Your task to perform on an android device: turn off picture-in-picture Image 0: 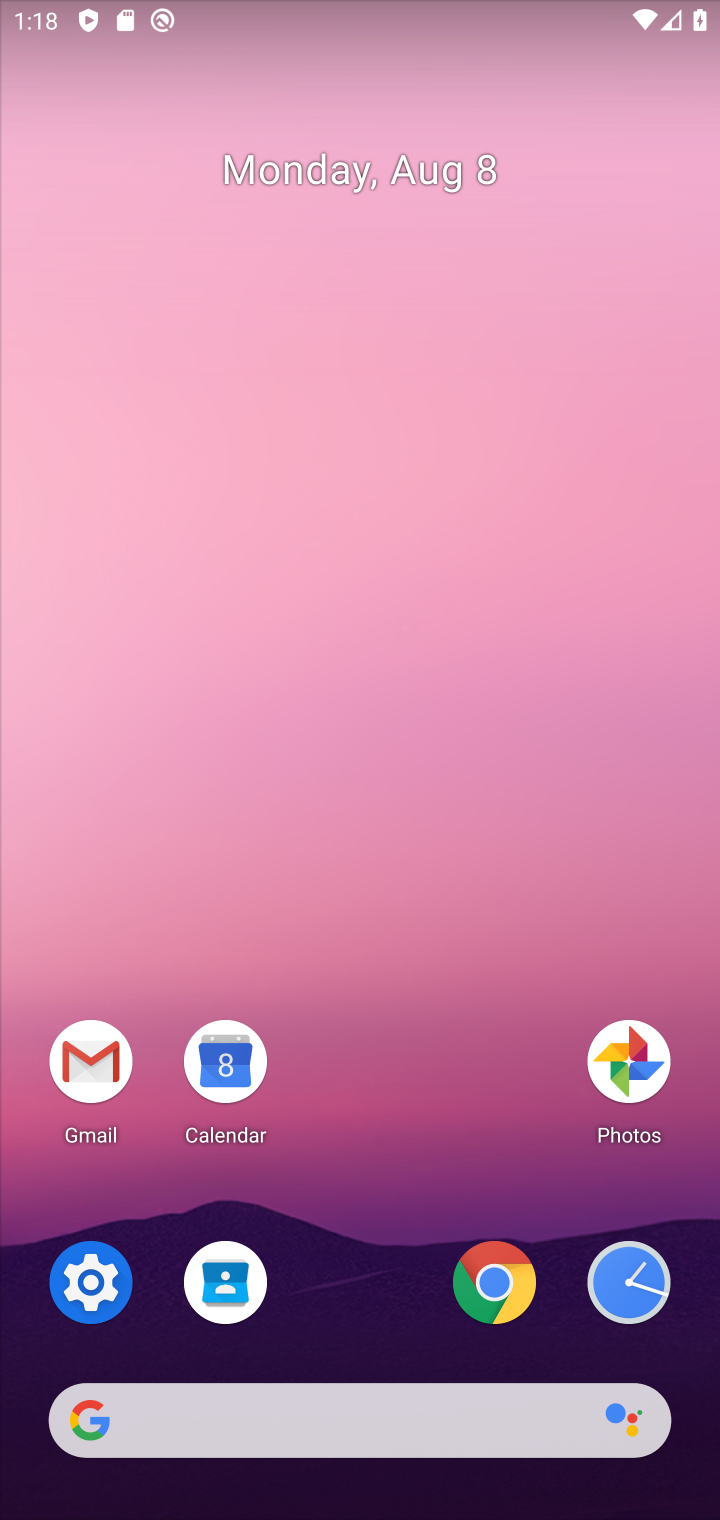
Step 0: click (88, 1298)
Your task to perform on an android device: turn off picture-in-picture Image 1: 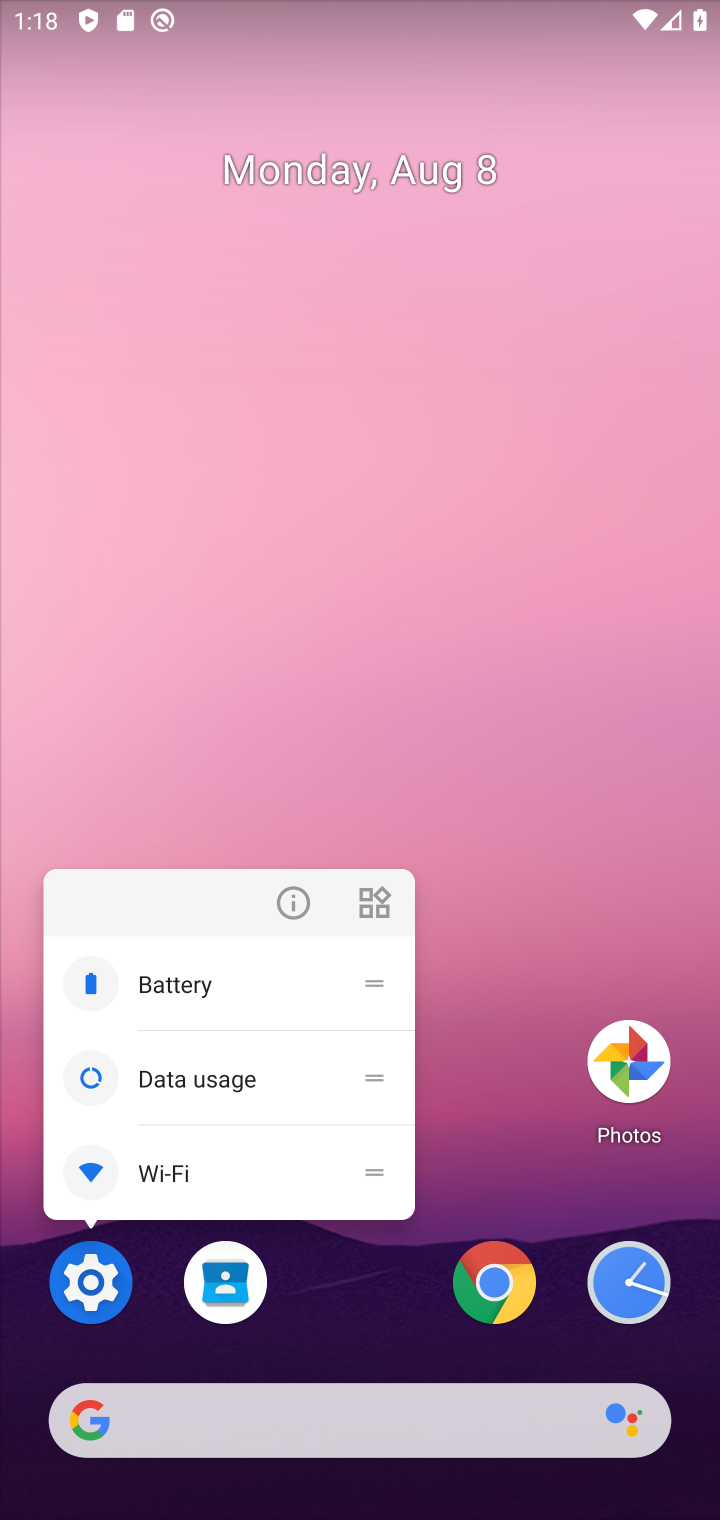
Step 1: click (106, 1279)
Your task to perform on an android device: turn off picture-in-picture Image 2: 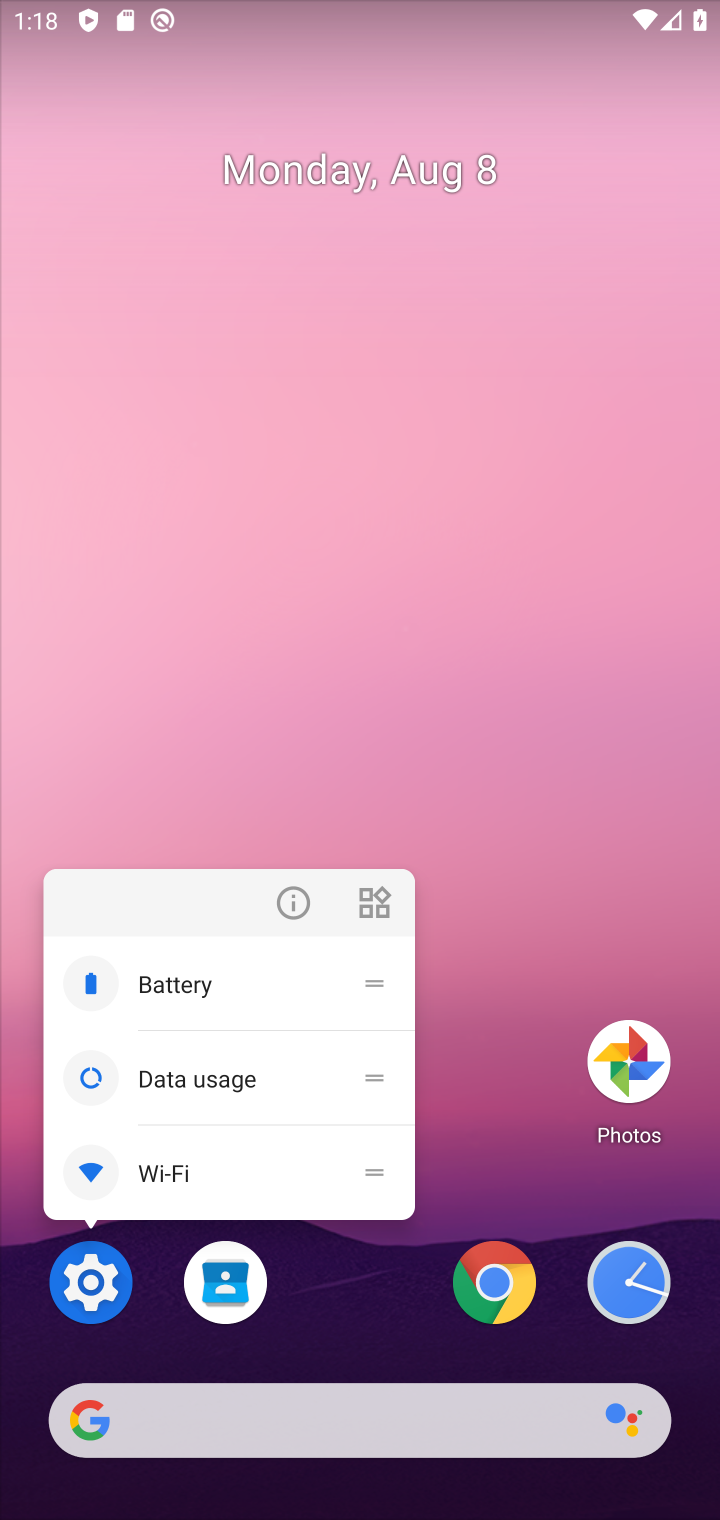
Step 2: click (84, 1294)
Your task to perform on an android device: turn off picture-in-picture Image 3: 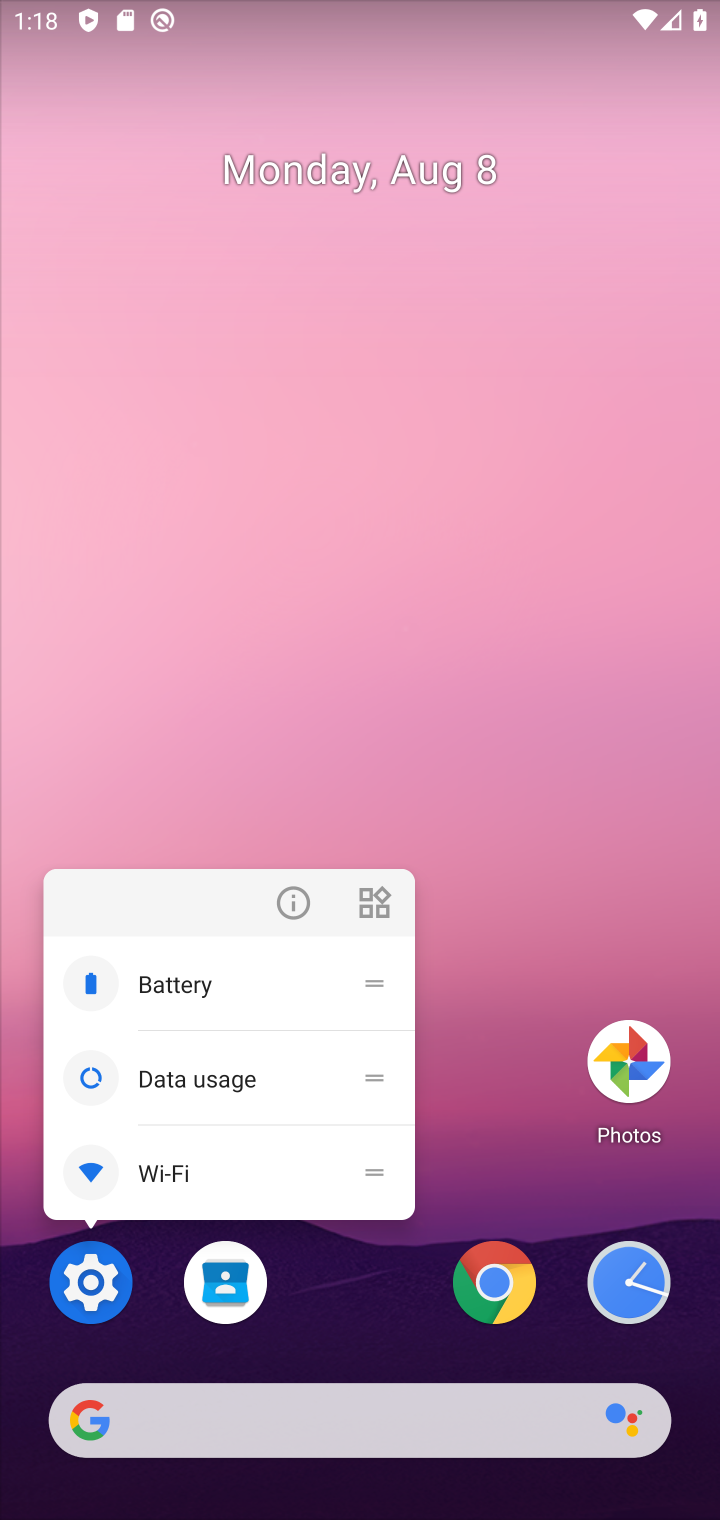
Step 3: click (481, 726)
Your task to perform on an android device: turn off picture-in-picture Image 4: 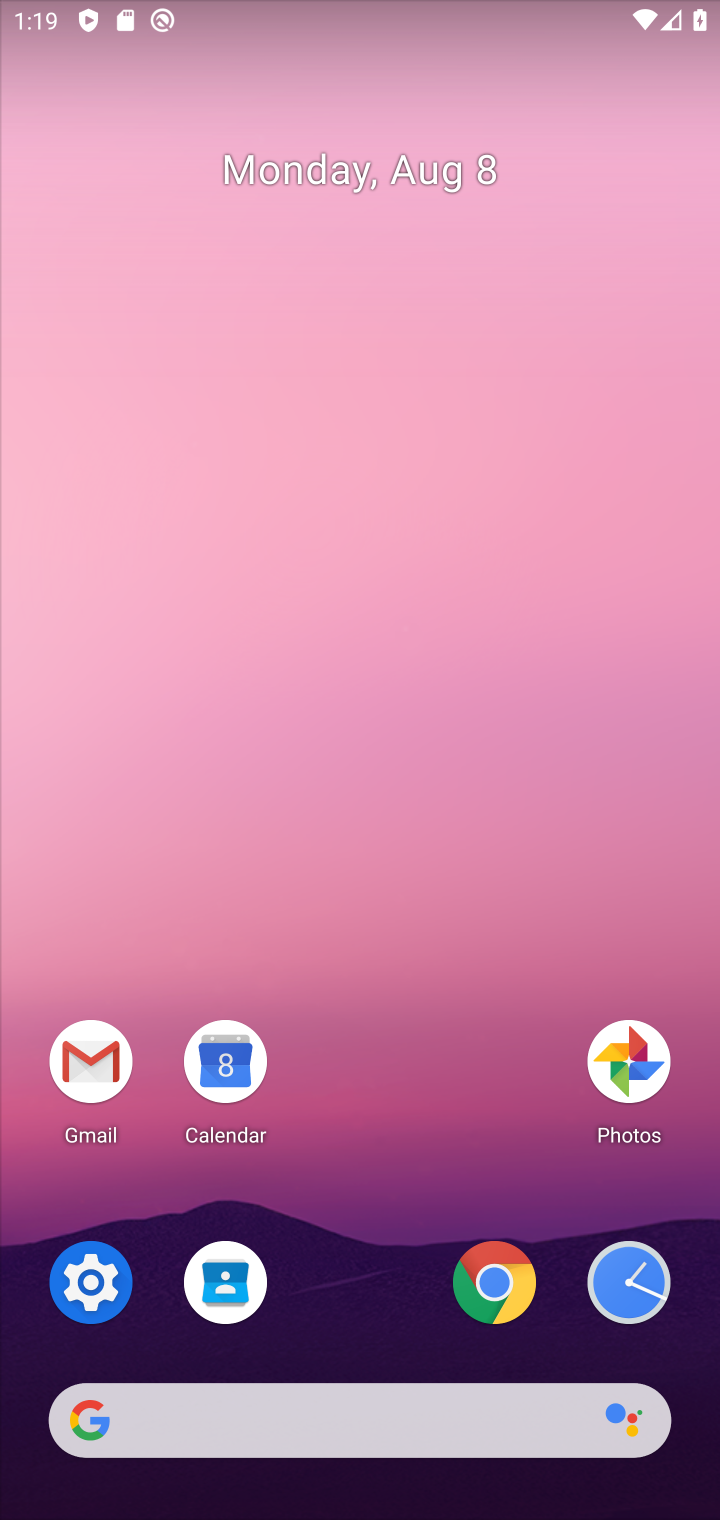
Step 4: click (90, 1283)
Your task to perform on an android device: turn off picture-in-picture Image 5: 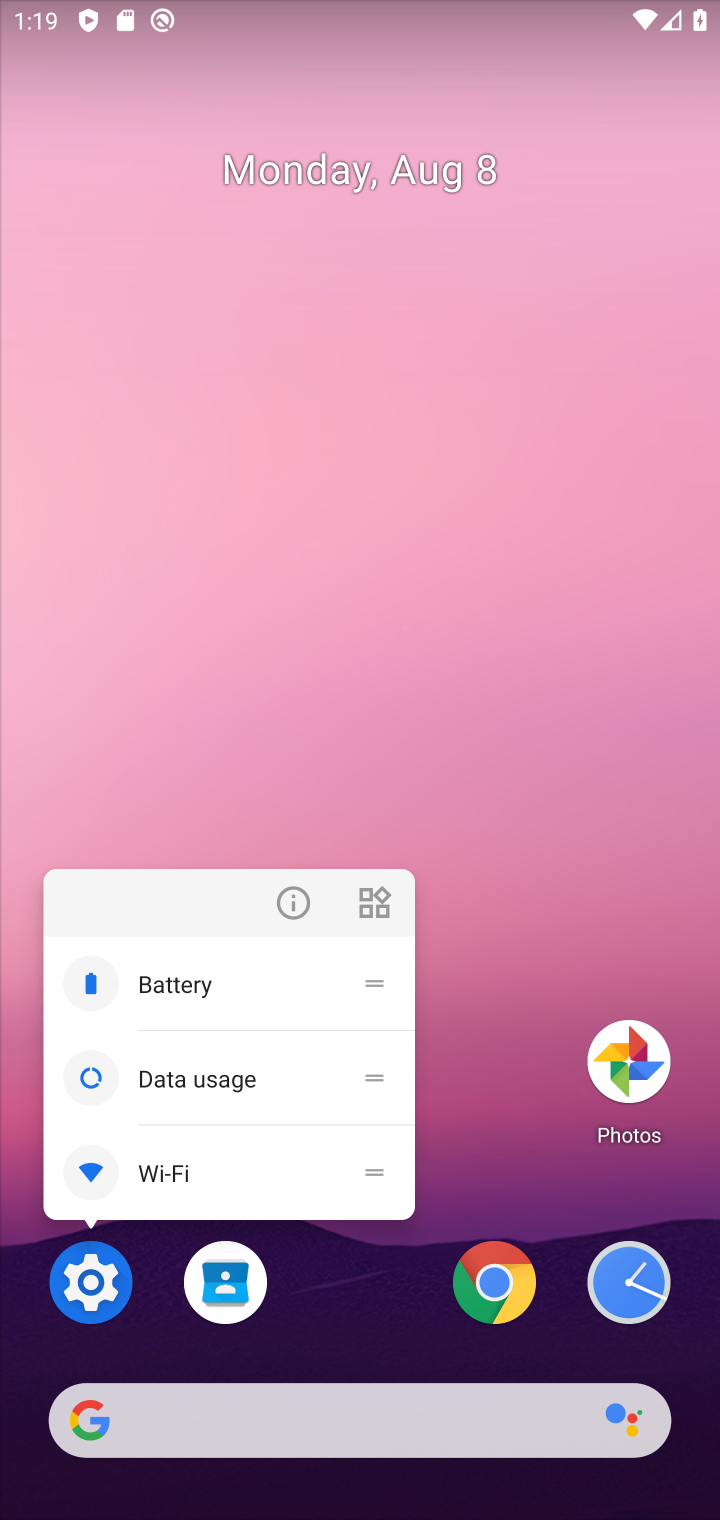
Step 5: click (89, 1320)
Your task to perform on an android device: turn off picture-in-picture Image 6: 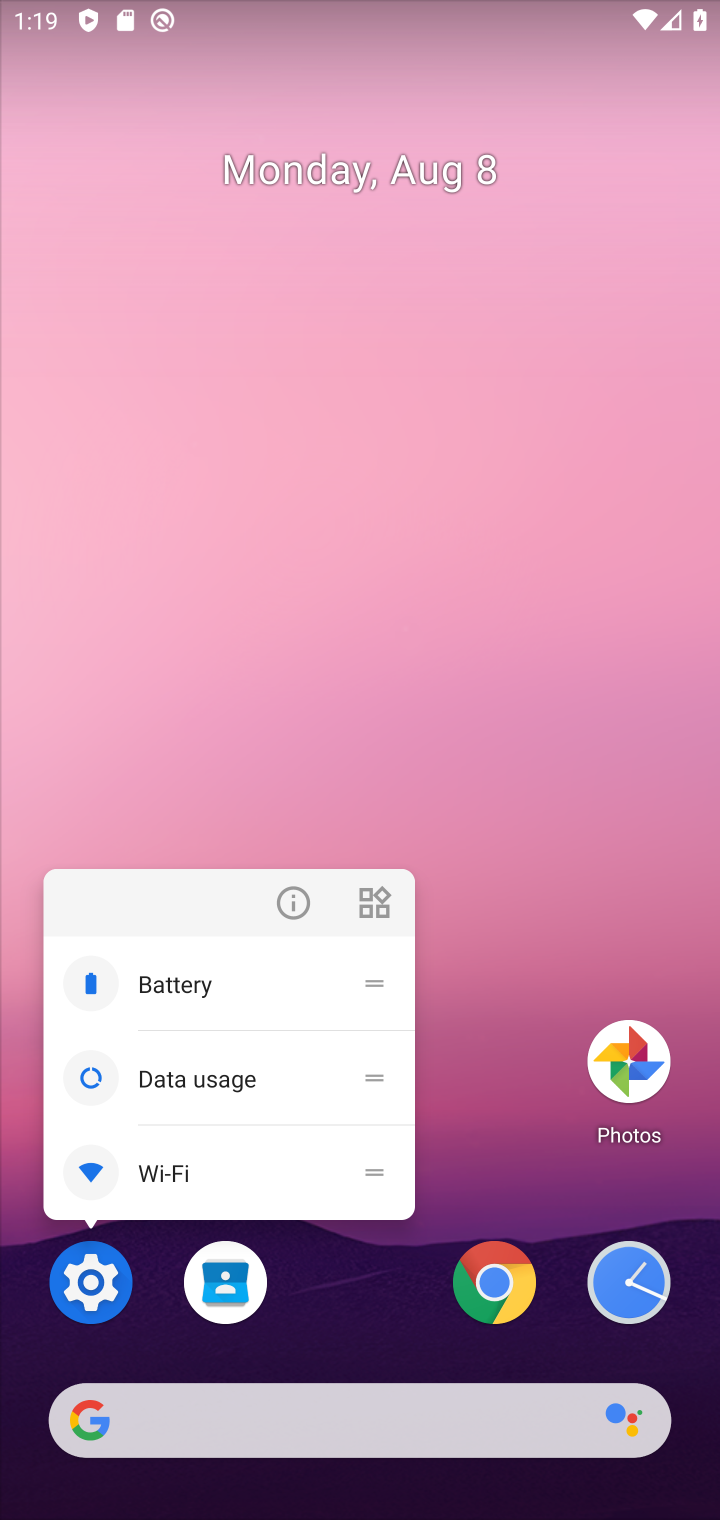
Step 6: click (379, 504)
Your task to perform on an android device: turn off picture-in-picture Image 7: 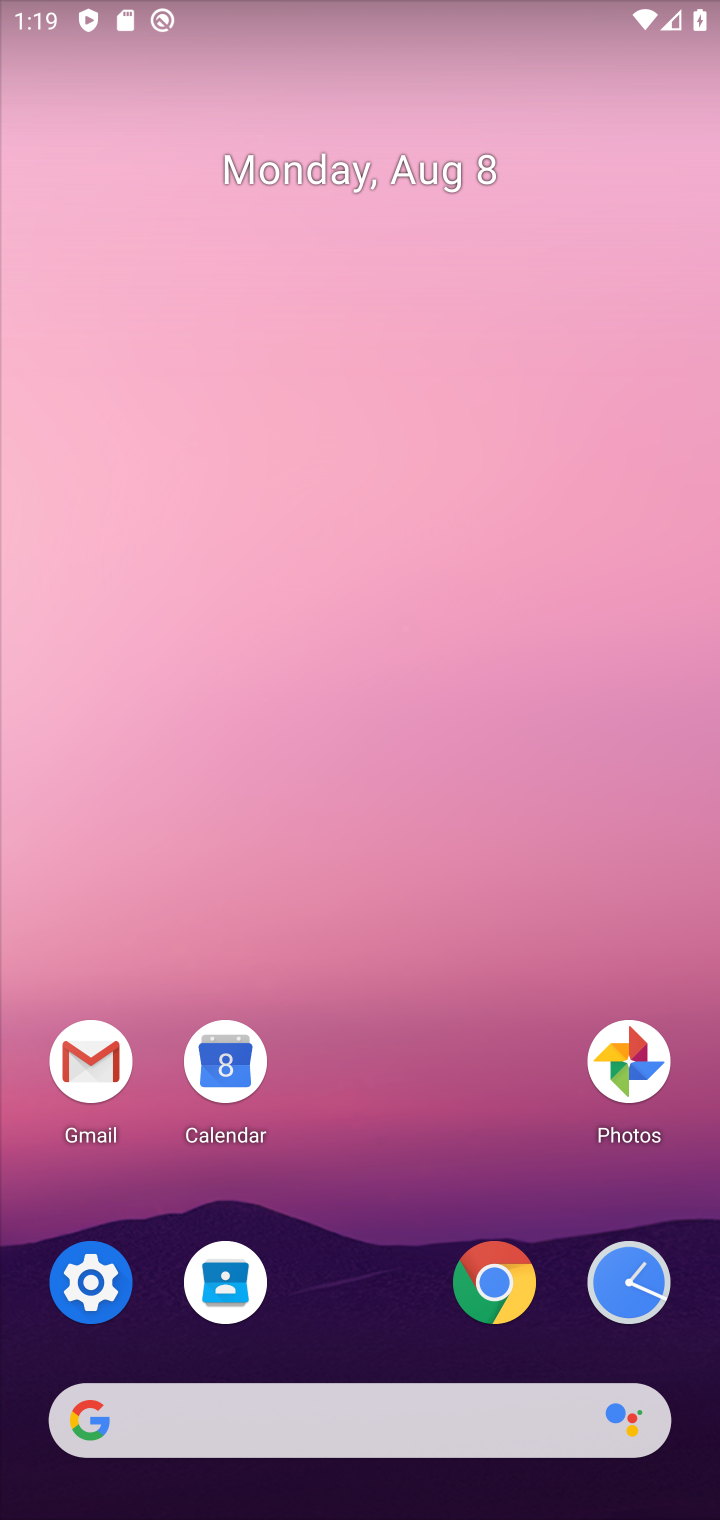
Step 7: click (103, 1278)
Your task to perform on an android device: turn off picture-in-picture Image 8: 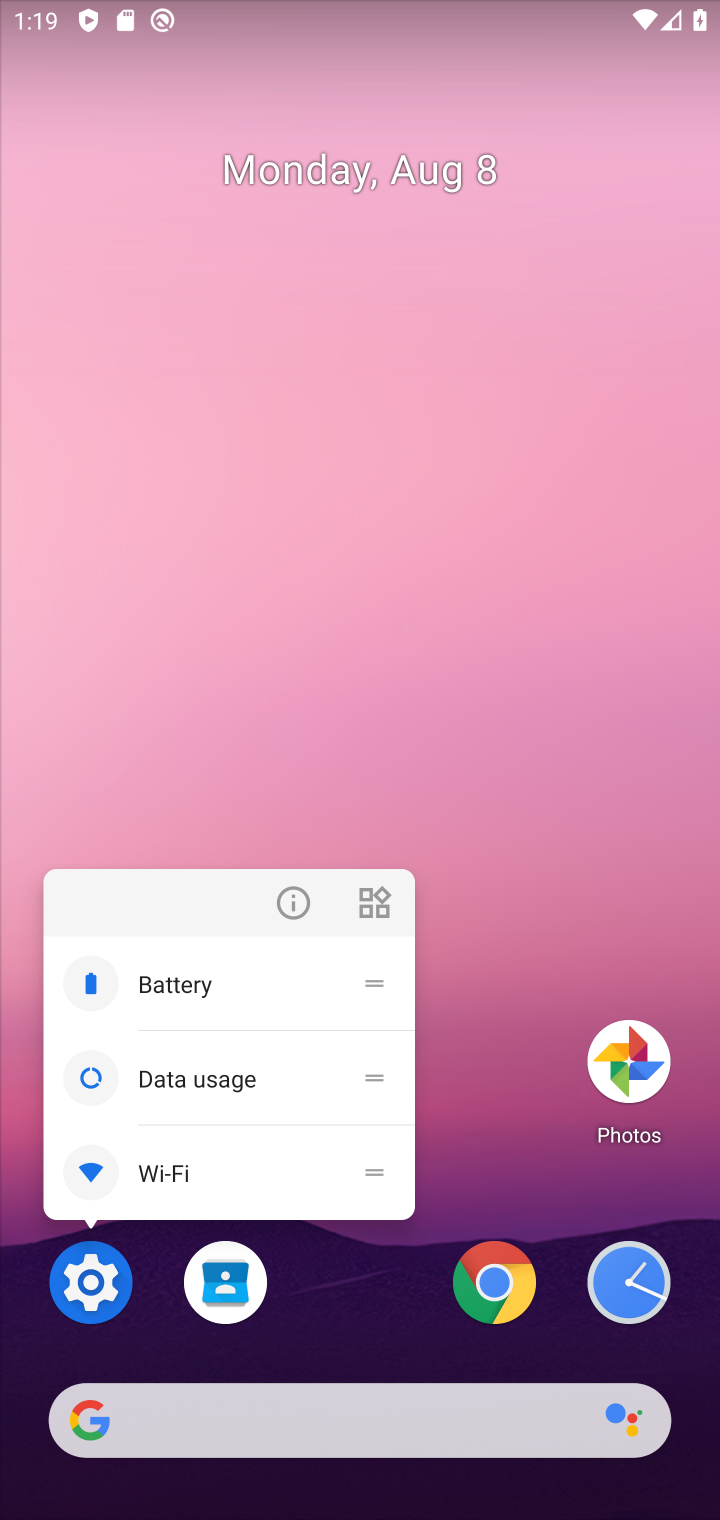
Step 8: click (94, 1276)
Your task to perform on an android device: turn off picture-in-picture Image 9: 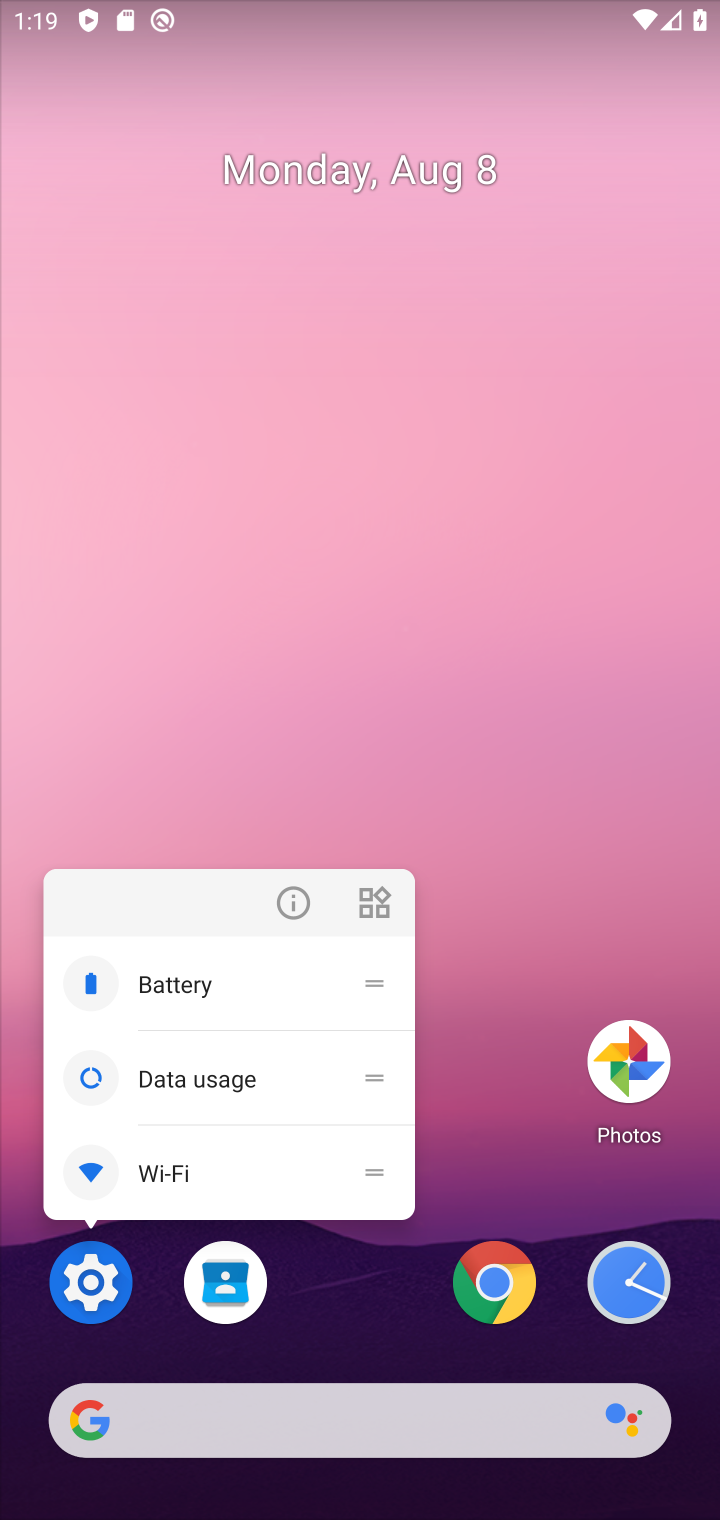
Step 9: click (94, 1276)
Your task to perform on an android device: turn off picture-in-picture Image 10: 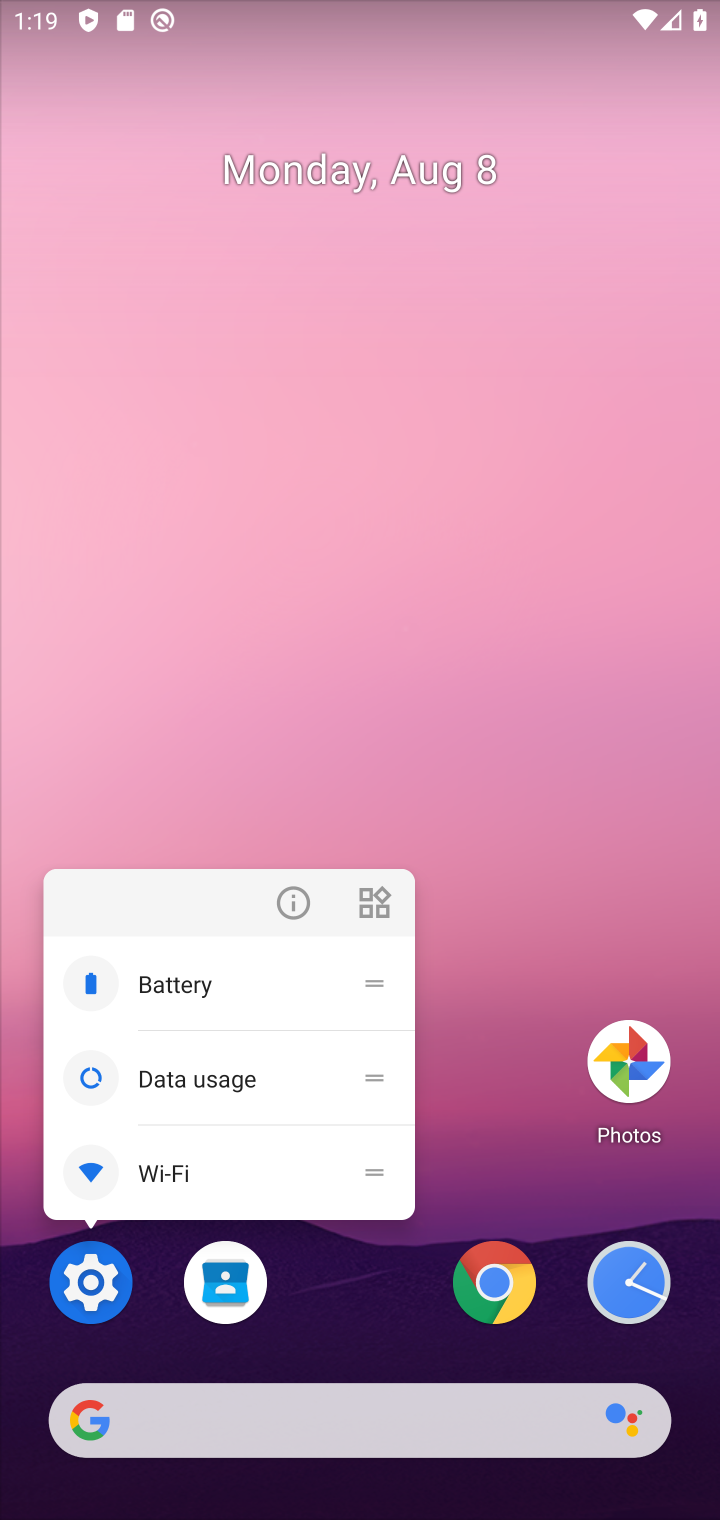
Step 10: click (63, 1276)
Your task to perform on an android device: turn off picture-in-picture Image 11: 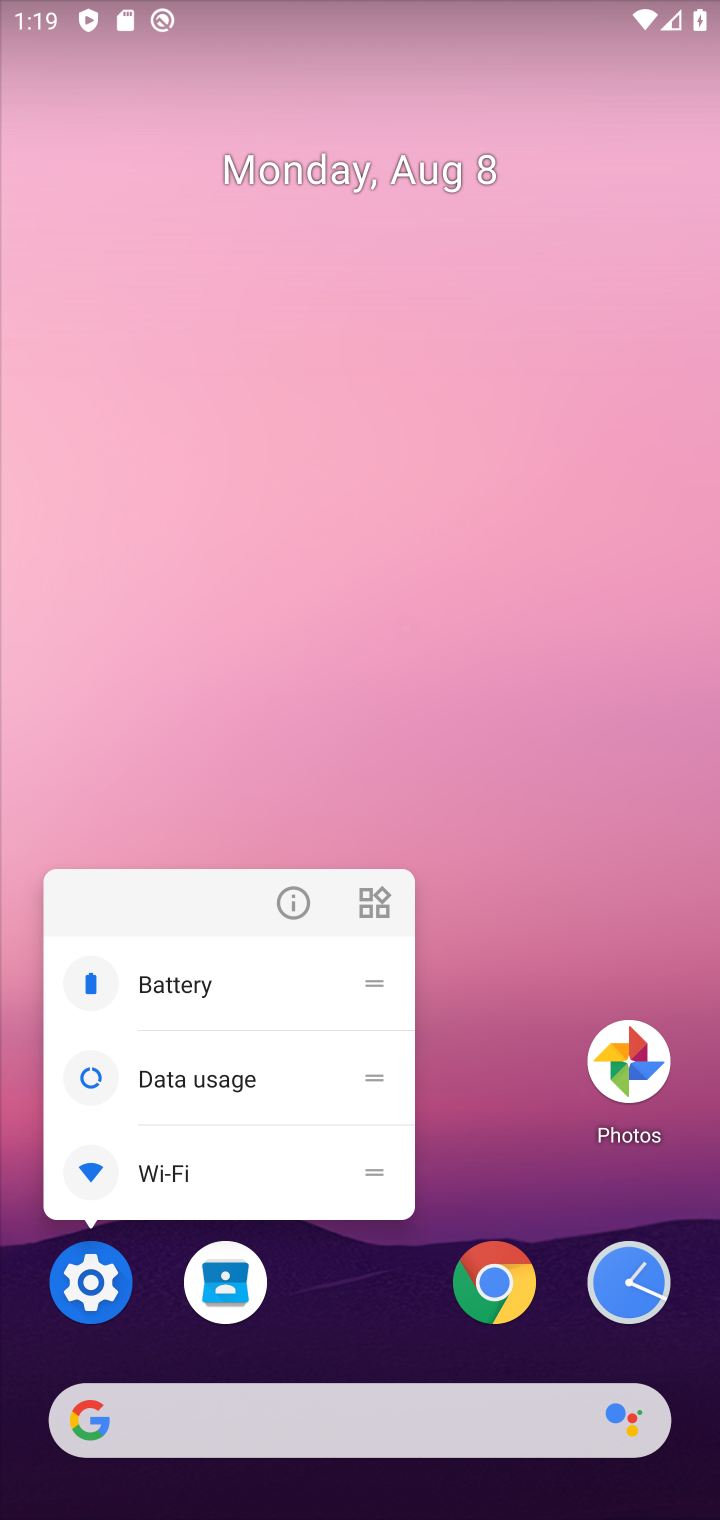
Step 11: click (99, 1270)
Your task to perform on an android device: turn off picture-in-picture Image 12: 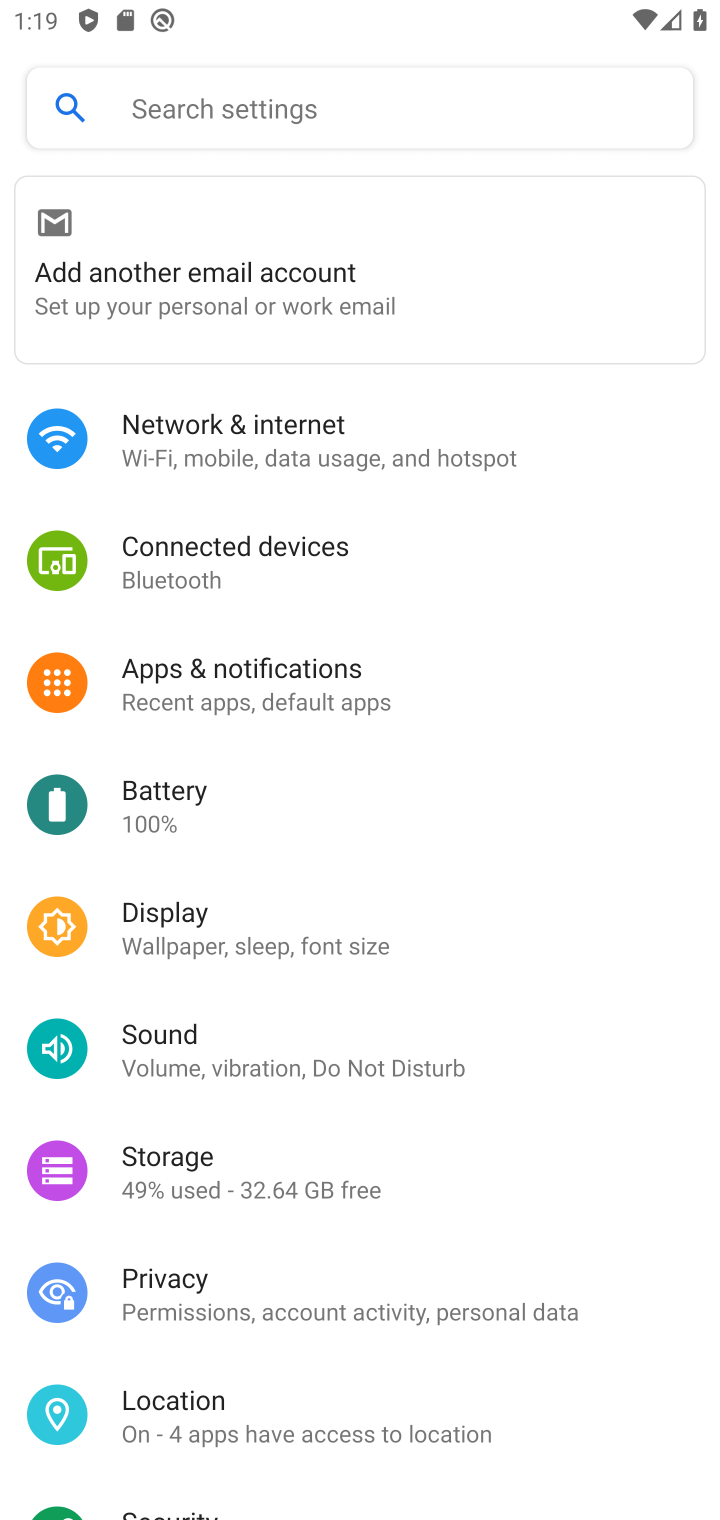
Step 12: click (251, 661)
Your task to perform on an android device: turn off picture-in-picture Image 13: 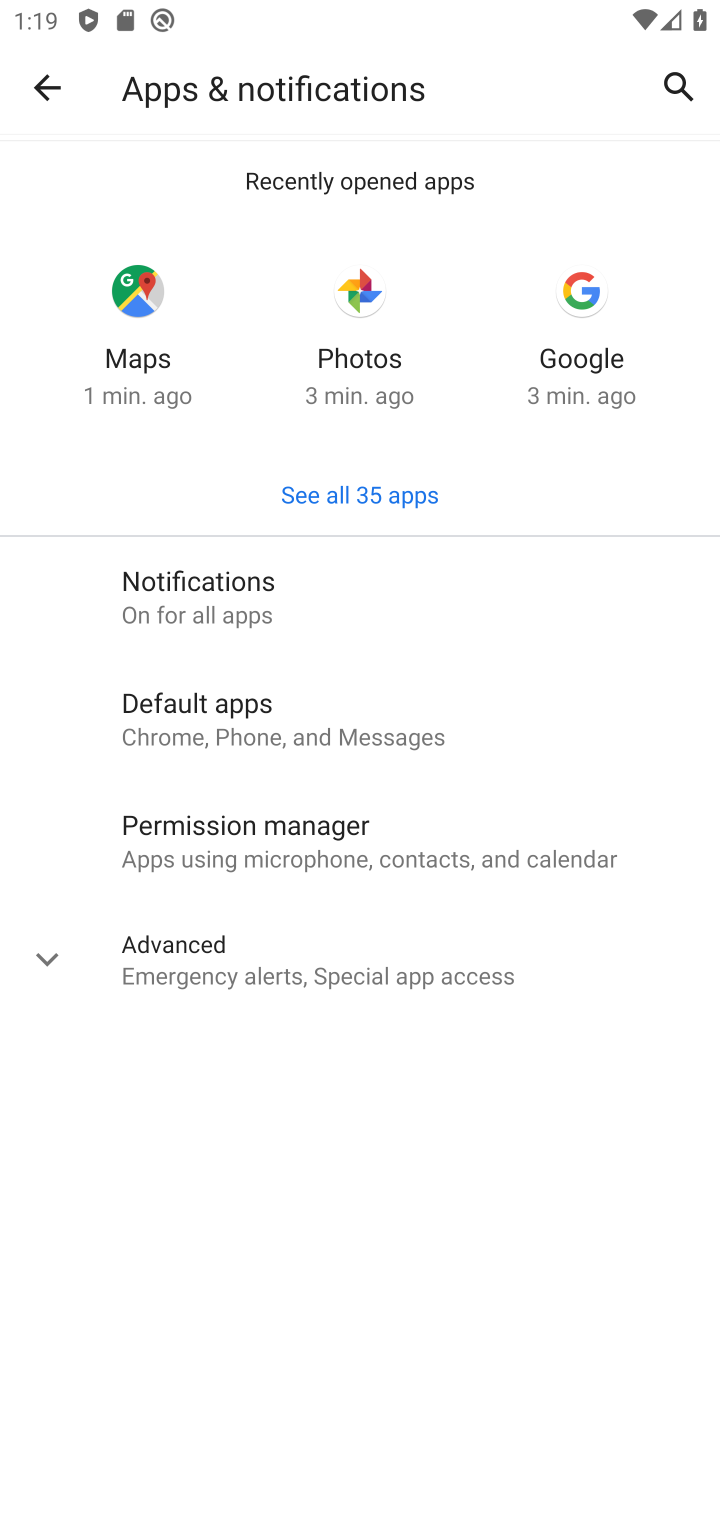
Step 13: click (48, 958)
Your task to perform on an android device: turn off picture-in-picture Image 14: 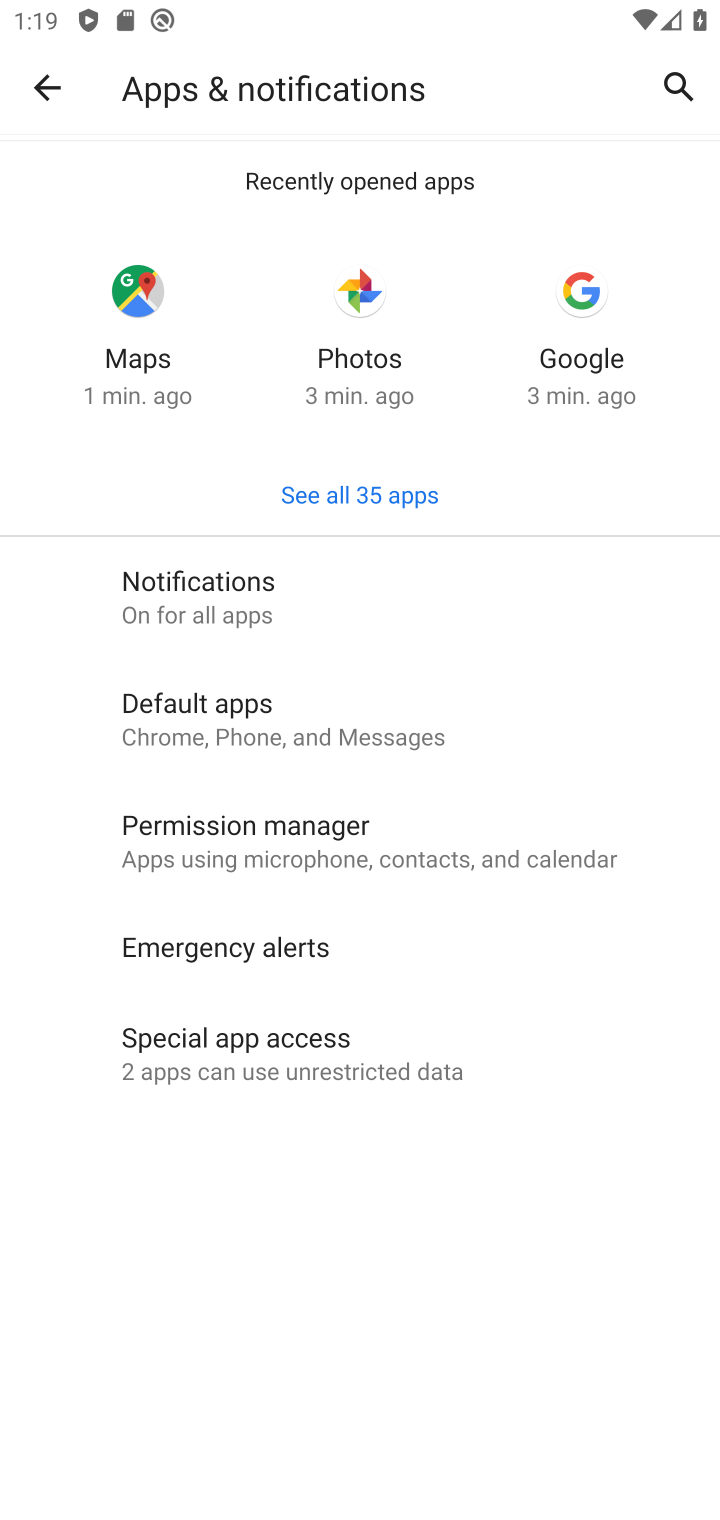
Step 14: click (242, 1036)
Your task to perform on an android device: turn off picture-in-picture Image 15: 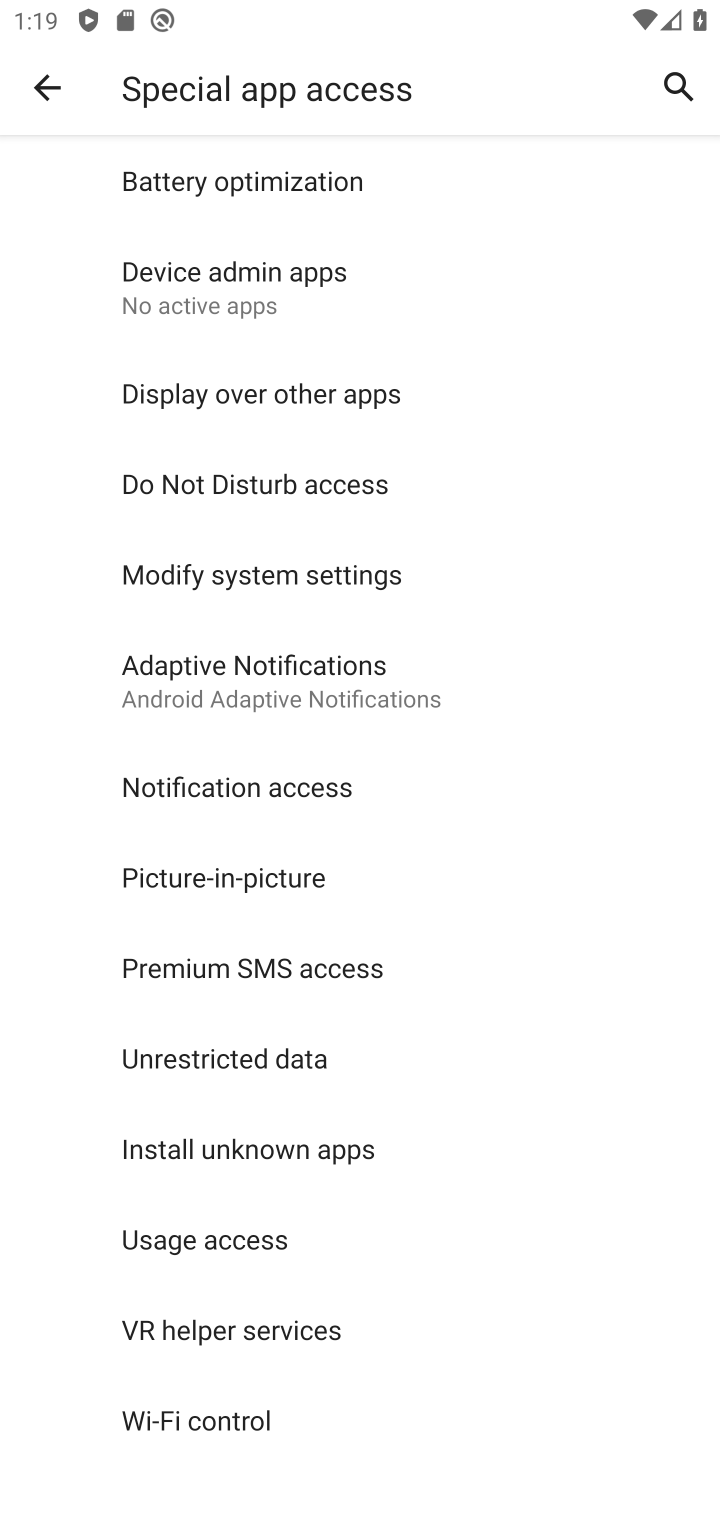
Step 15: click (227, 880)
Your task to perform on an android device: turn off picture-in-picture Image 16: 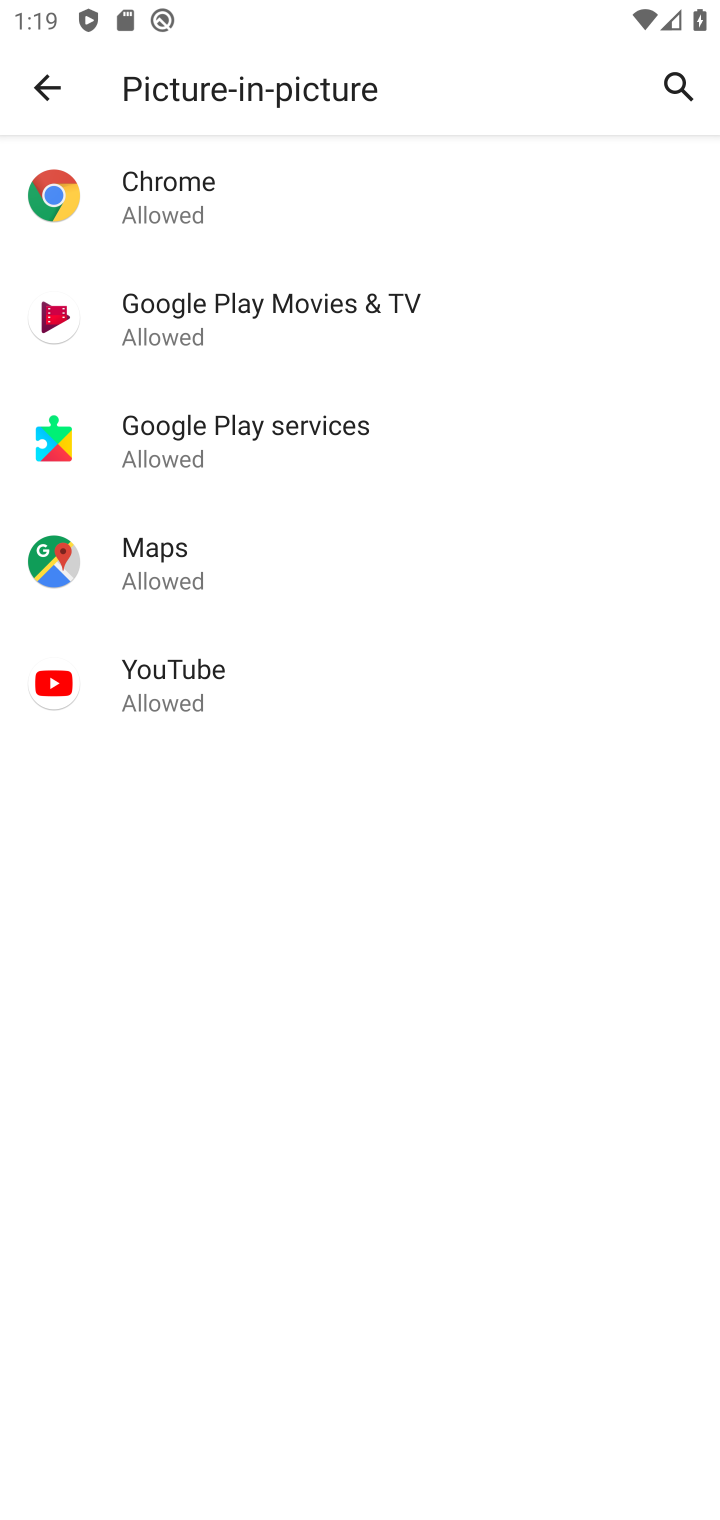
Step 16: click (163, 192)
Your task to perform on an android device: turn off picture-in-picture Image 17: 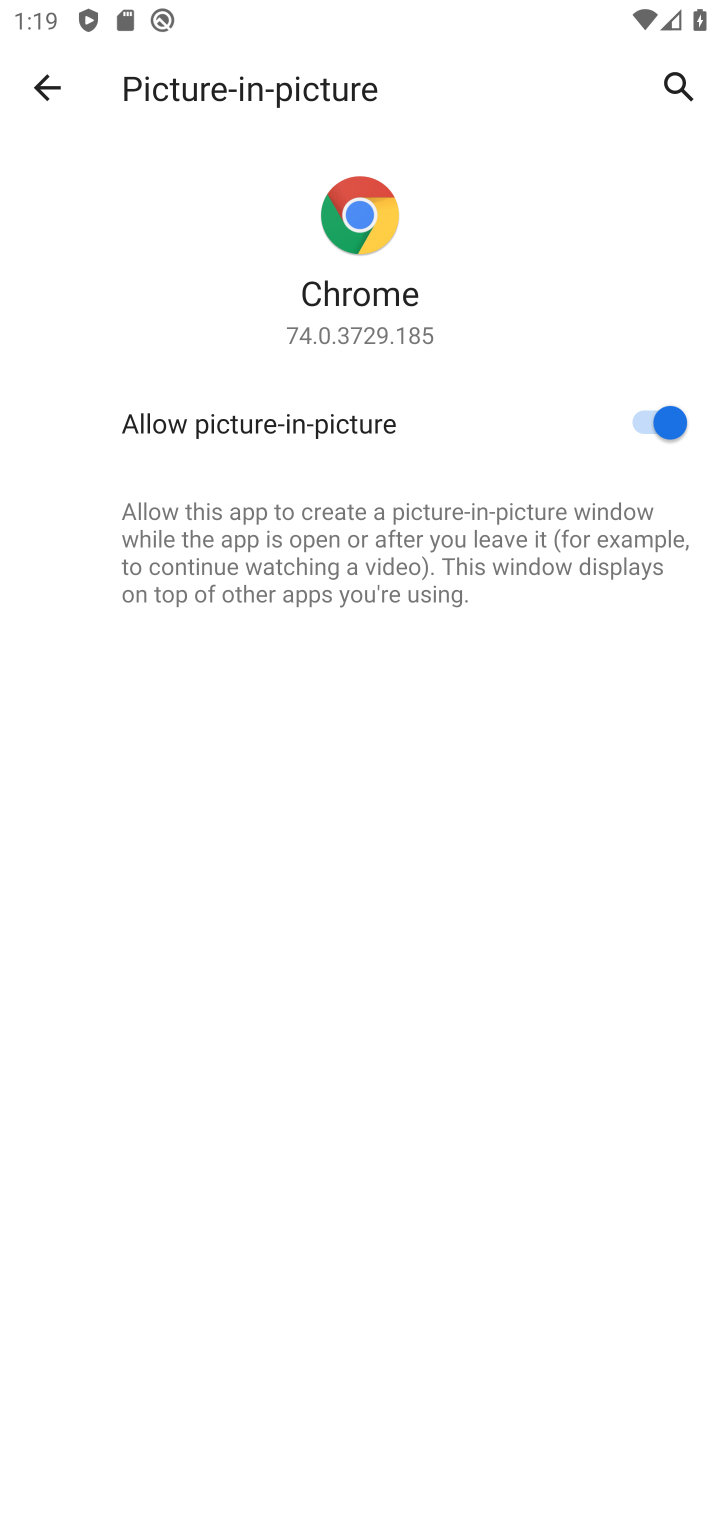
Step 17: click (657, 401)
Your task to perform on an android device: turn off picture-in-picture Image 18: 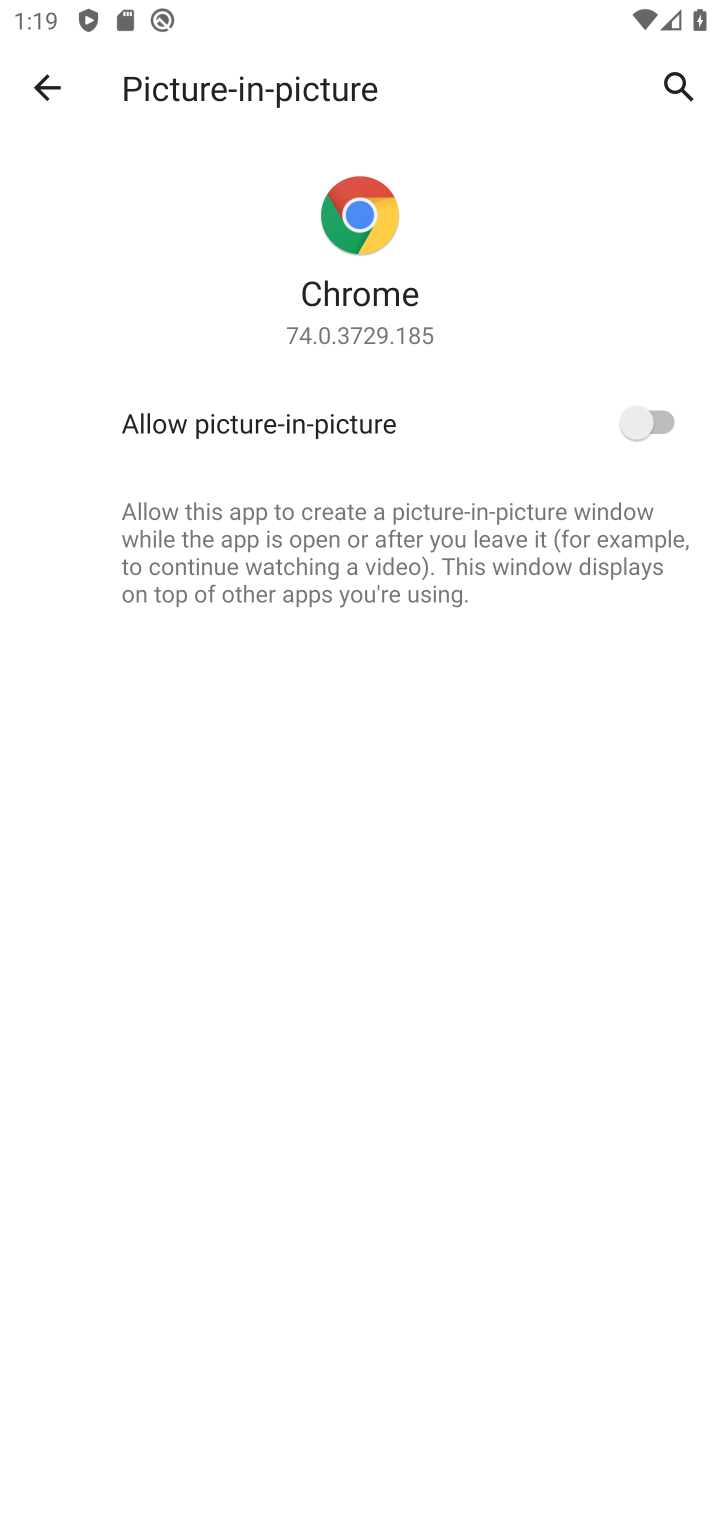
Step 18: click (42, 91)
Your task to perform on an android device: turn off picture-in-picture Image 19: 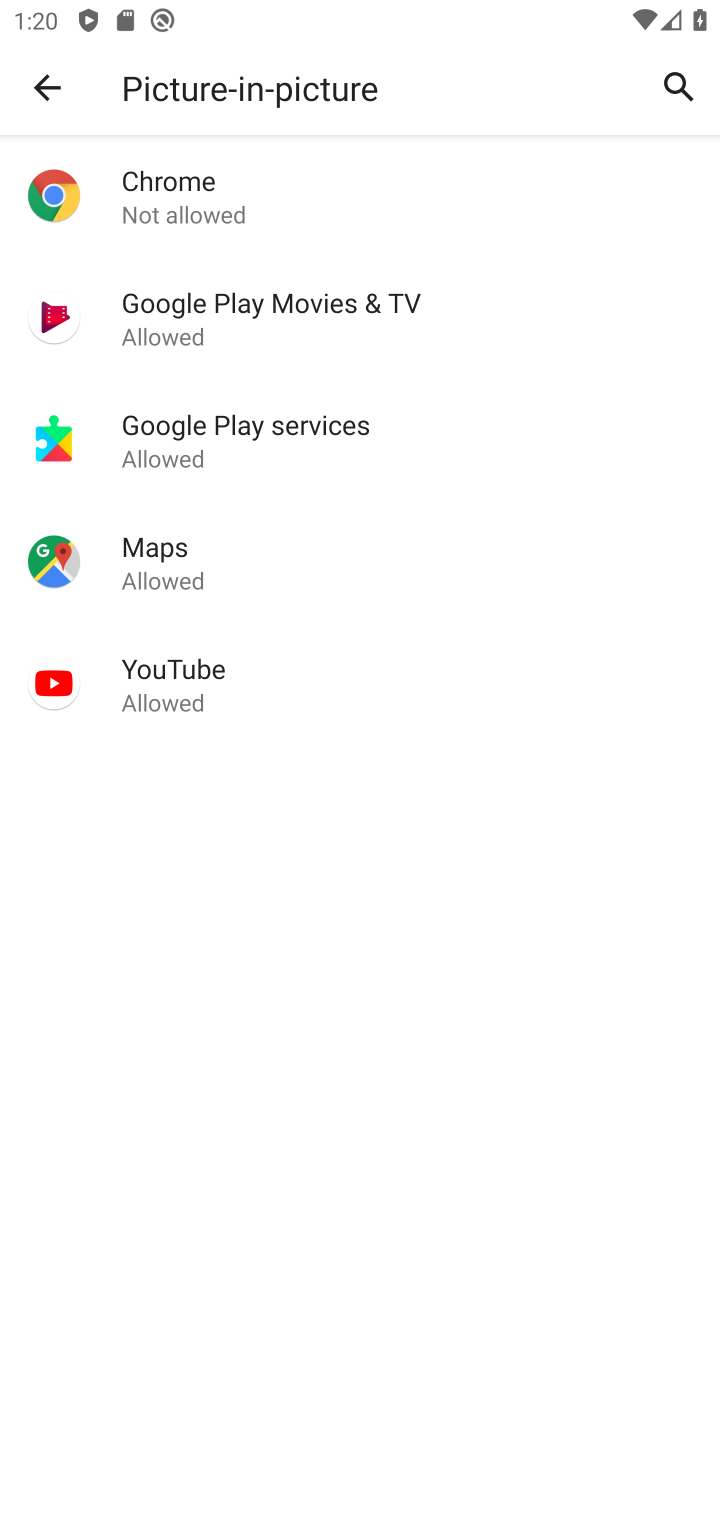
Step 19: click (141, 311)
Your task to perform on an android device: turn off picture-in-picture Image 20: 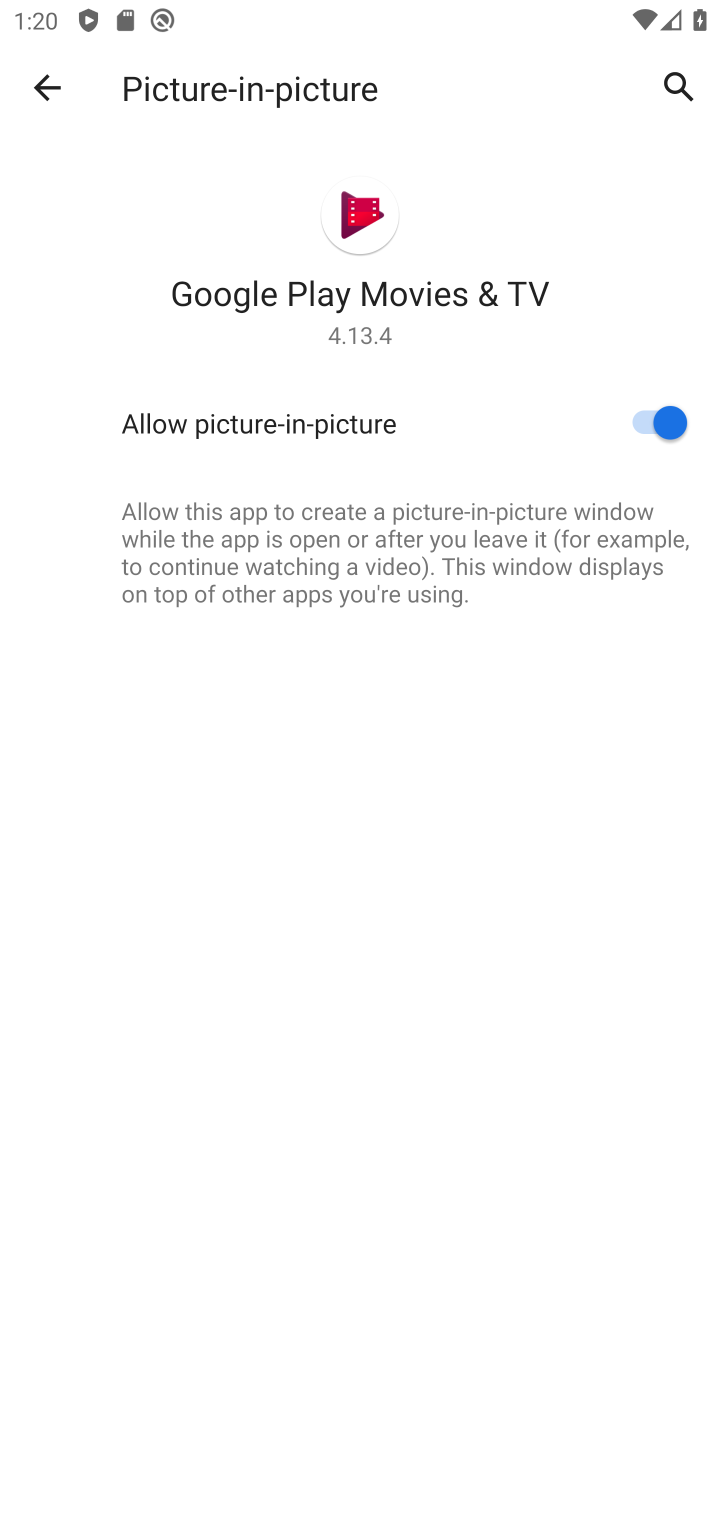
Step 20: click (649, 418)
Your task to perform on an android device: turn off picture-in-picture Image 21: 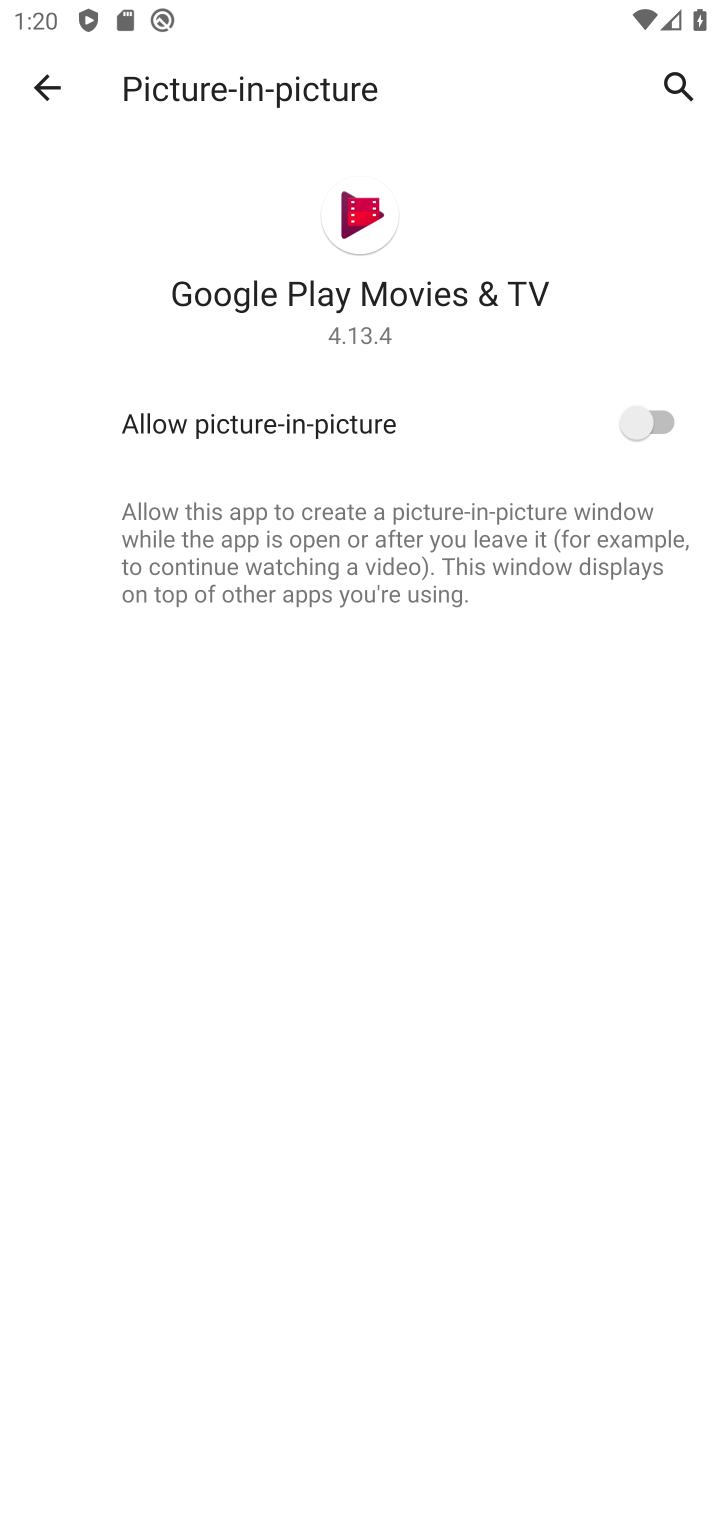
Step 21: click (40, 115)
Your task to perform on an android device: turn off picture-in-picture Image 22: 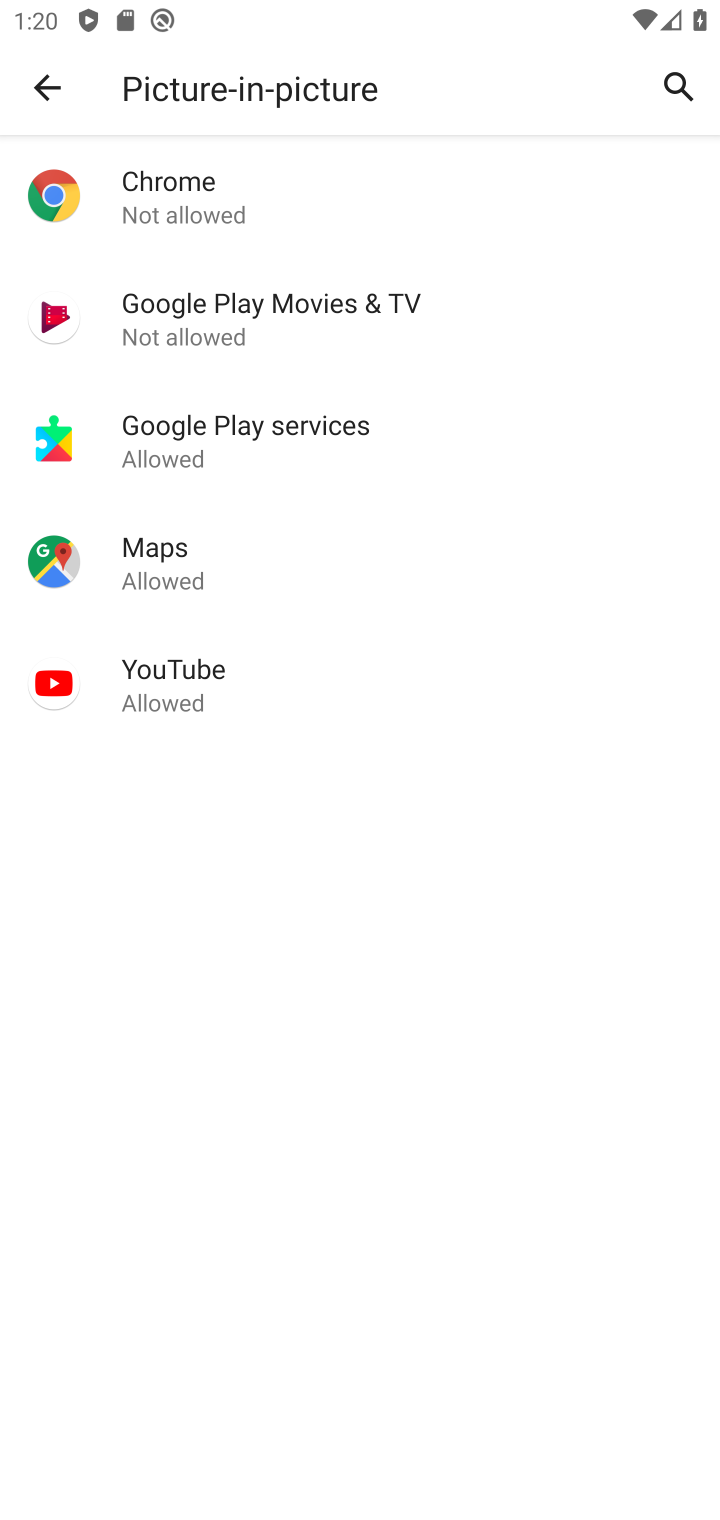
Step 22: click (175, 409)
Your task to perform on an android device: turn off picture-in-picture Image 23: 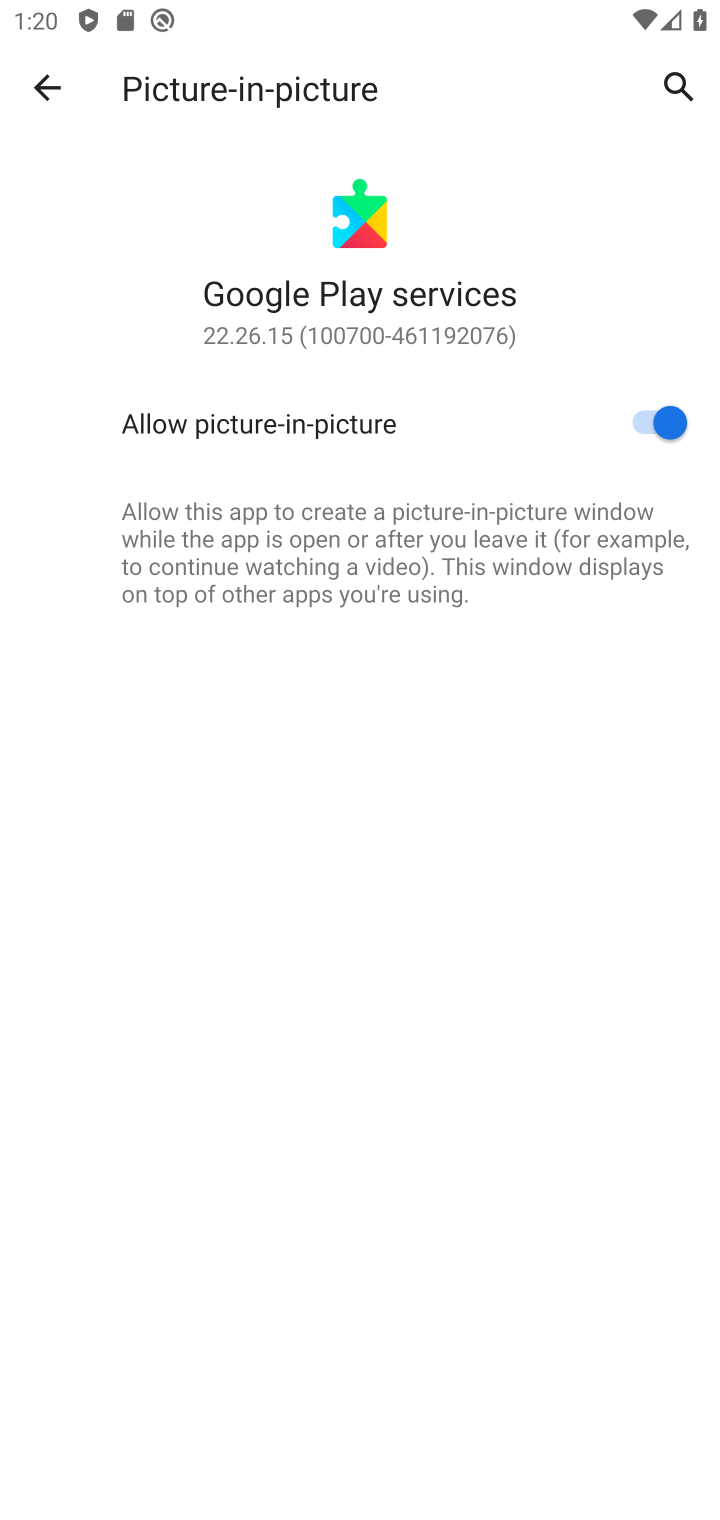
Step 23: click (679, 423)
Your task to perform on an android device: turn off picture-in-picture Image 24: 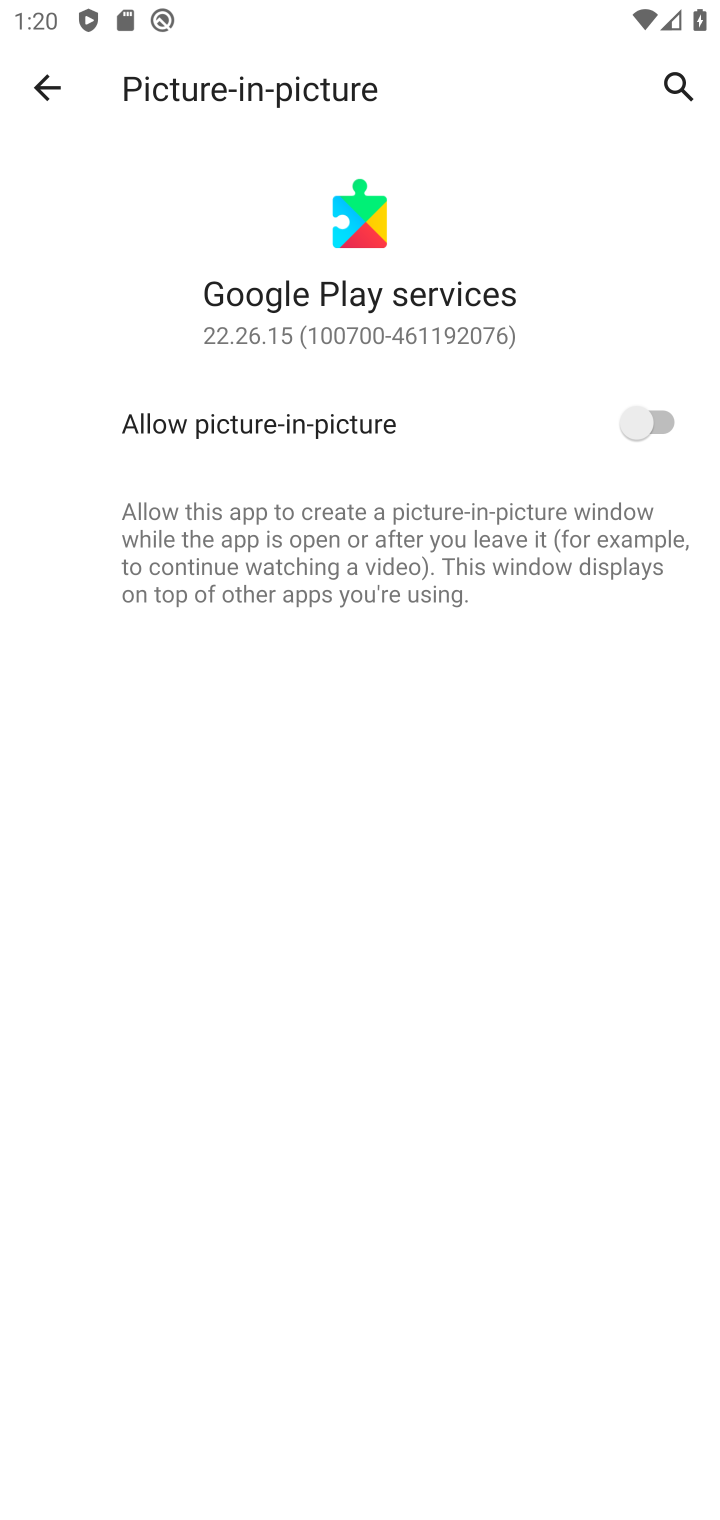
Step 24: click (48, 96)
Your task to perform on an android device: turn off picture-in-picture Image 25: 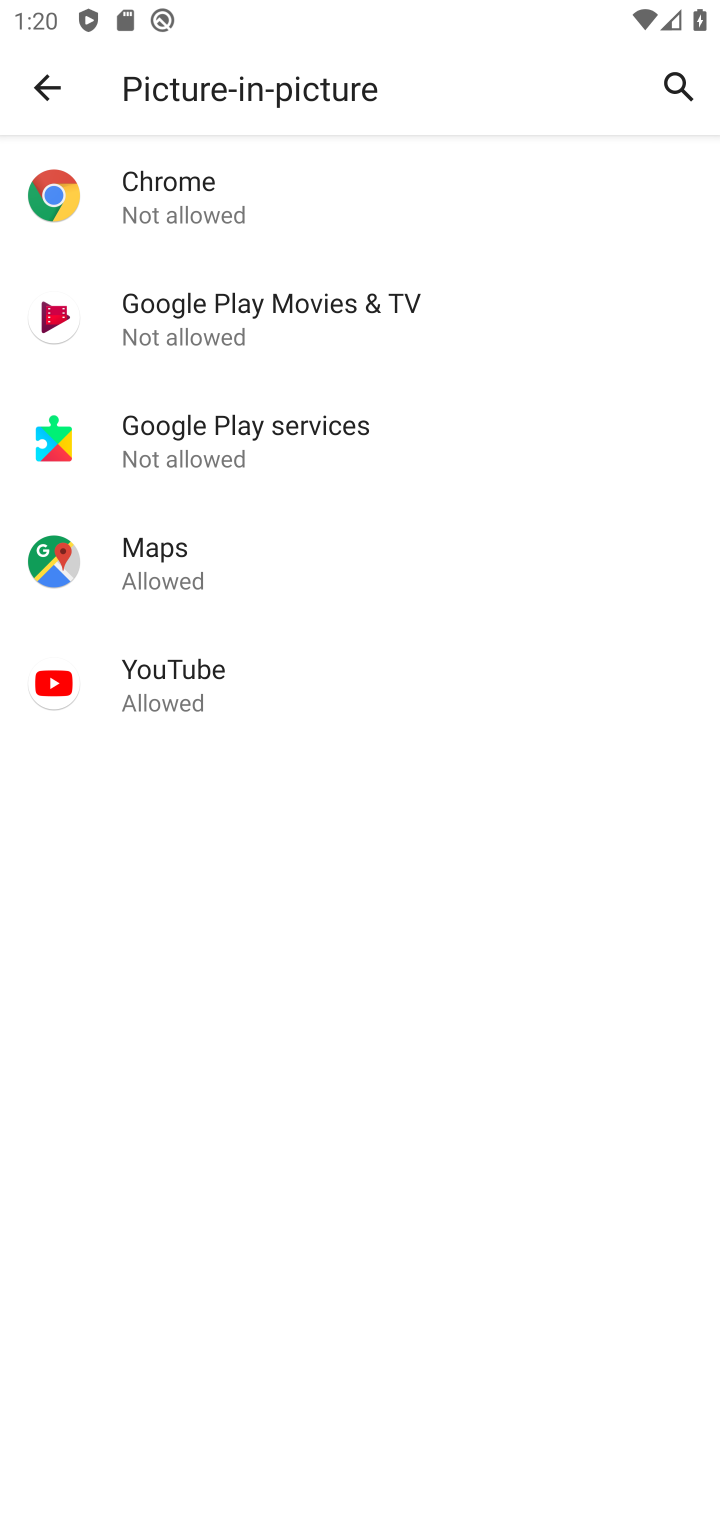
Step 25: click (173, 569)
Your task to perform on an android device: turn off picture-in-picture Image 26: 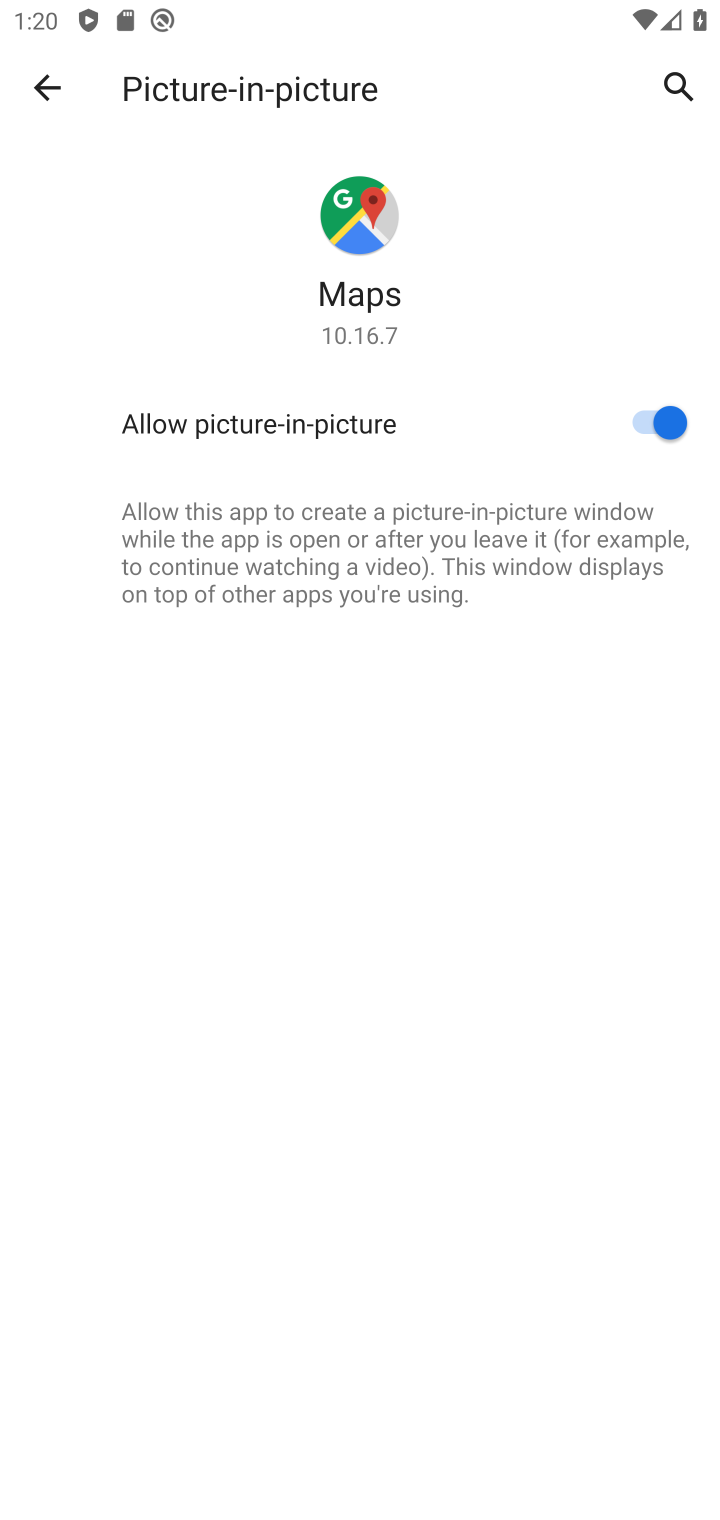
Step 26: click (654, 435)
Your task to perform on an android device: turn off picture-in-picture Image 27: 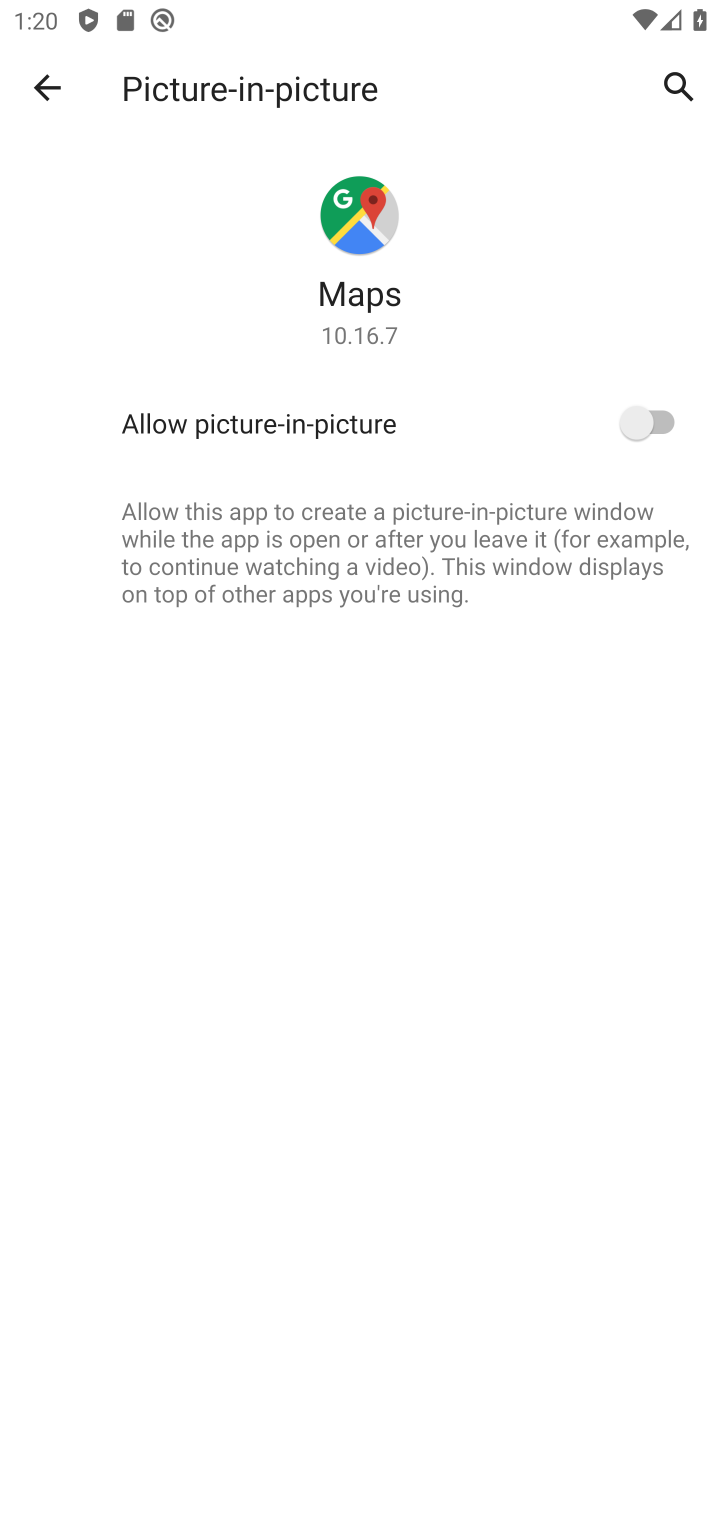
Step 27: click (49, 91)
Your task to perform on an android device: turn off picture-in-picture Image 28: 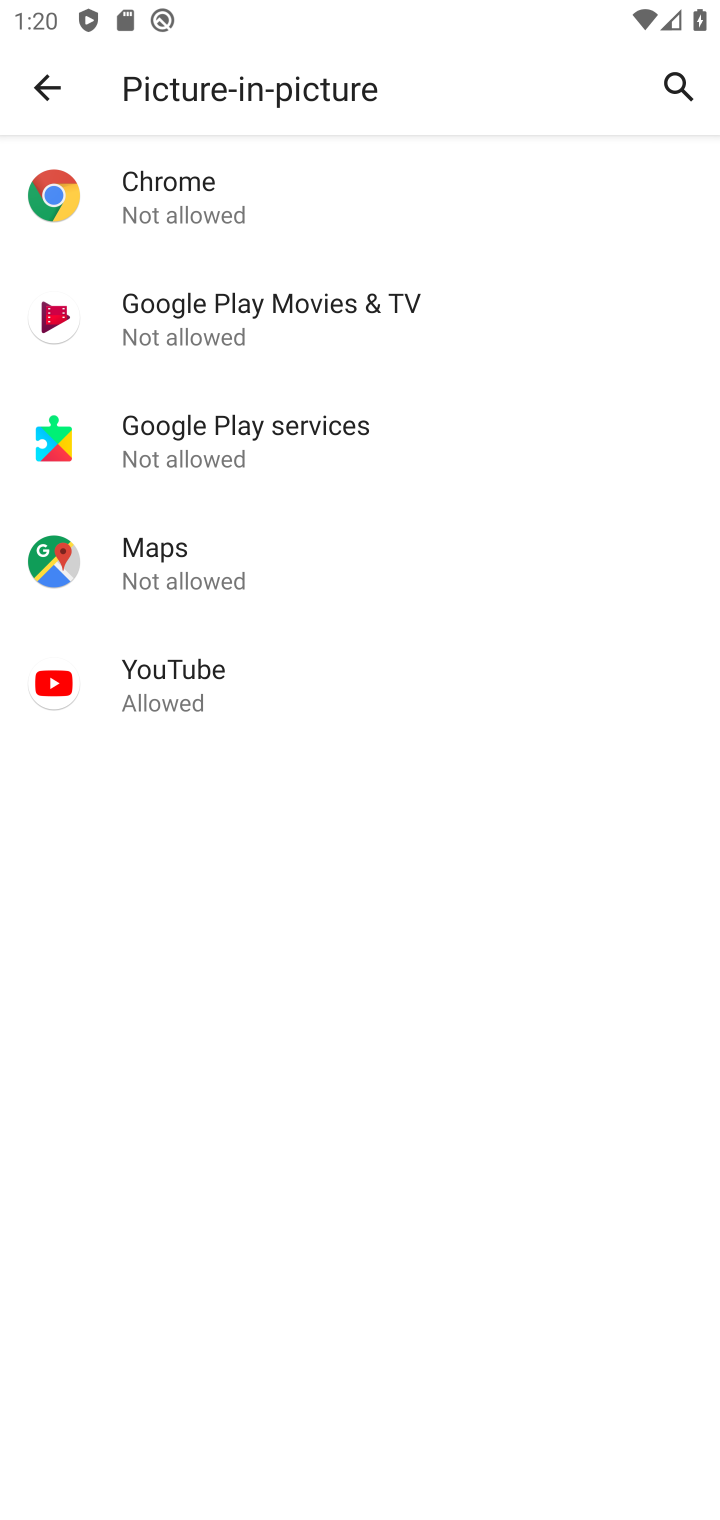
Step 28: click (183, 671)
Your task to perform on an android device: turn off picture-in-picture Image 29: 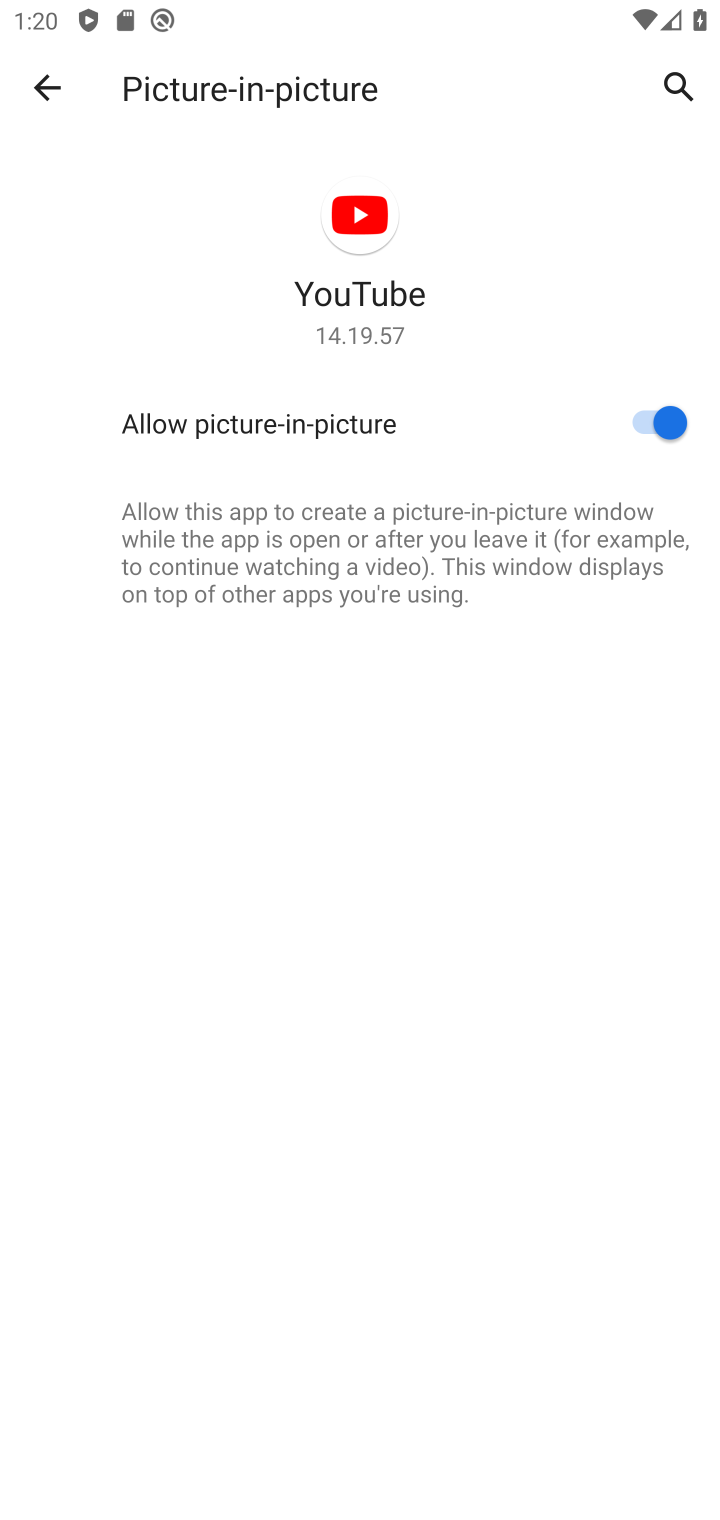
Step 29: click (660, 418)
Your task to perform on an android device: turn off picture-in-picture Image 30: 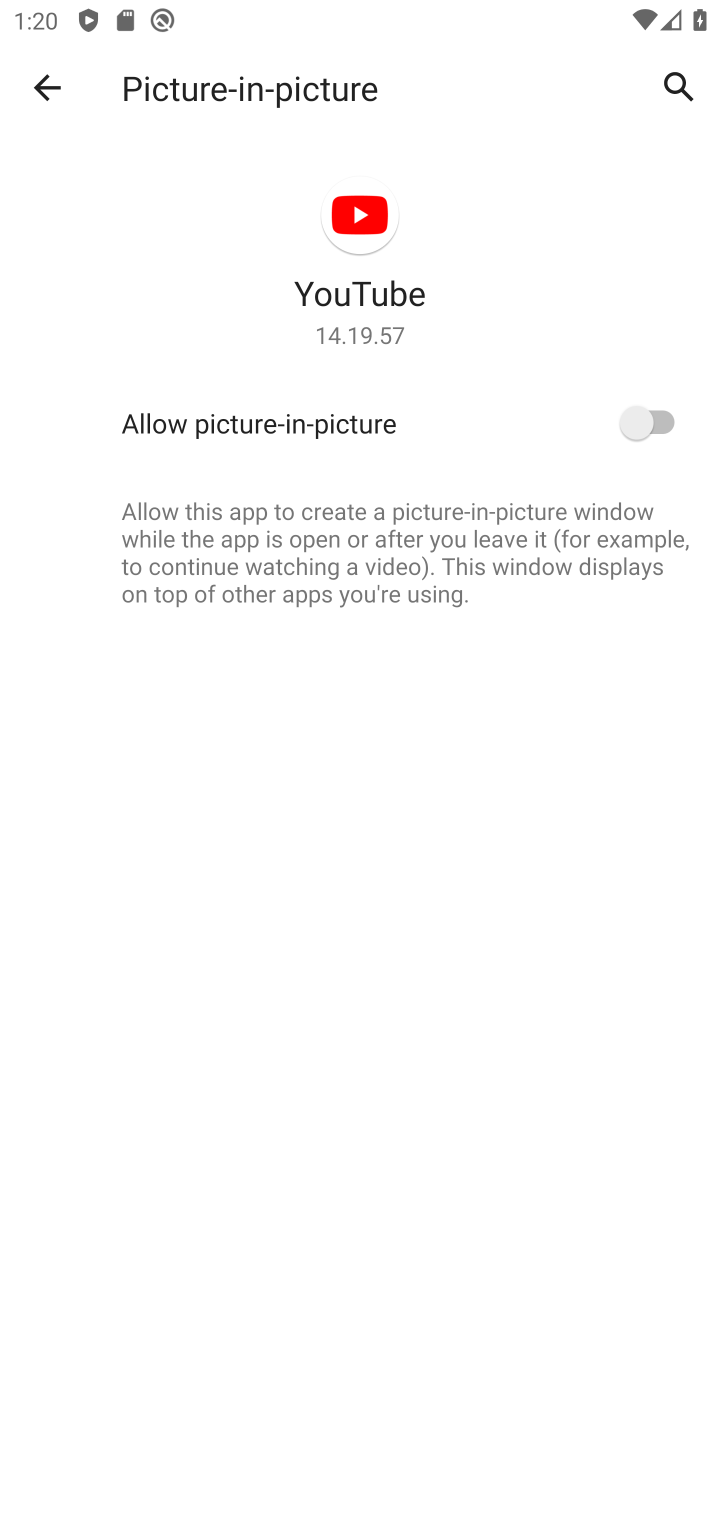
Step 30: click (49, 89)
Your task to perform on an android device: turn off picture-in-picture Image 31: 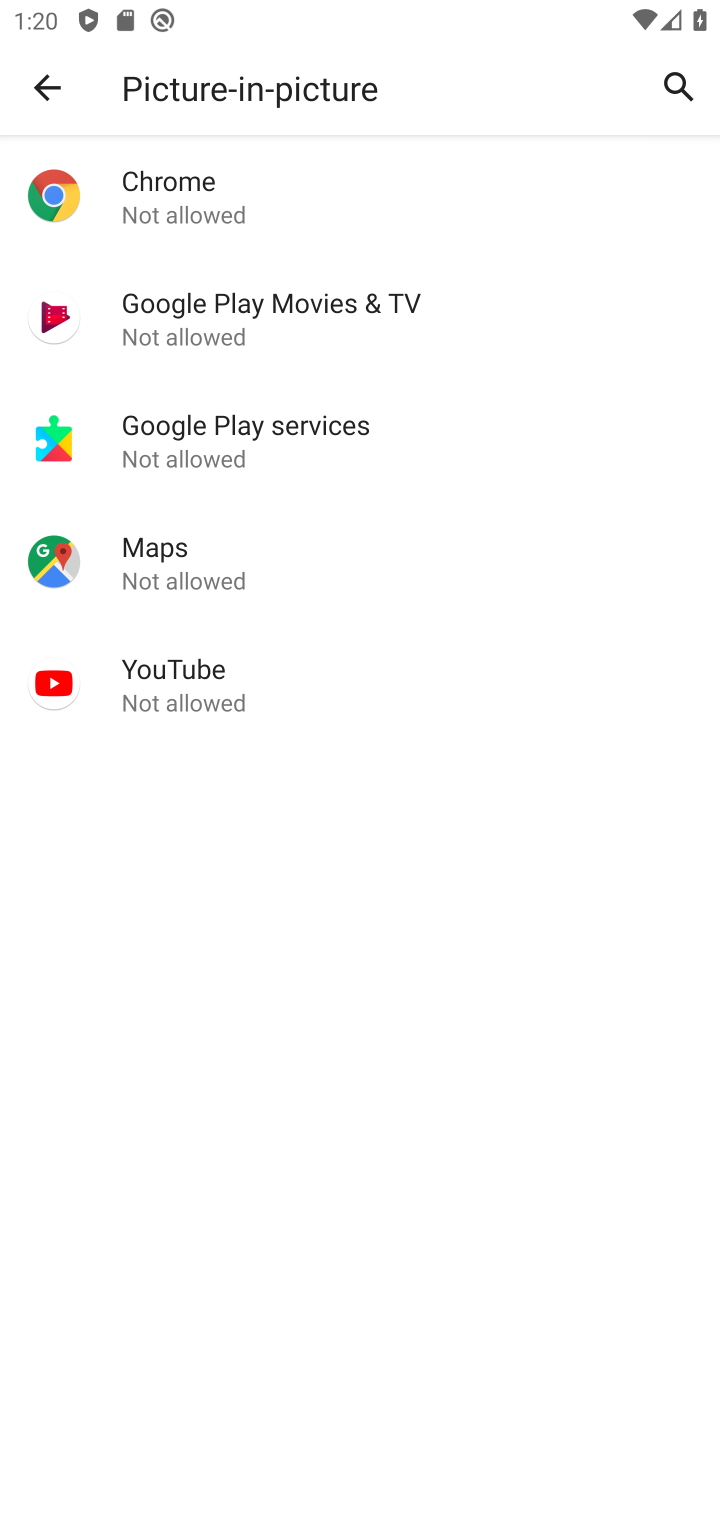
Step 31: task complete